Your task to perform on an android device: Search for hotels in Miami Image 0: 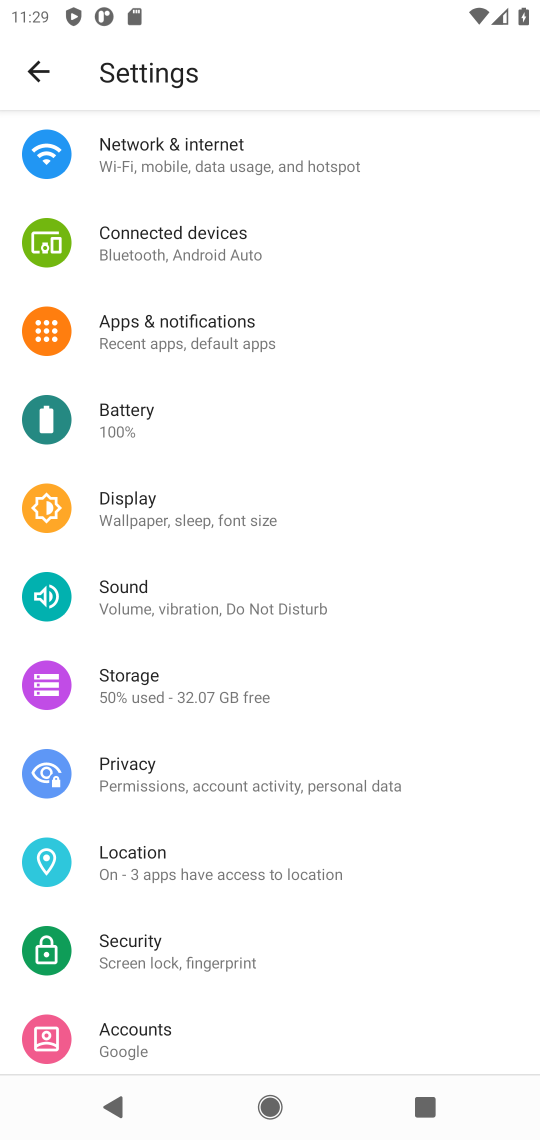
Step 0: press back button
Your task to perform on an android device: Search for hotels in Miami Image 1: 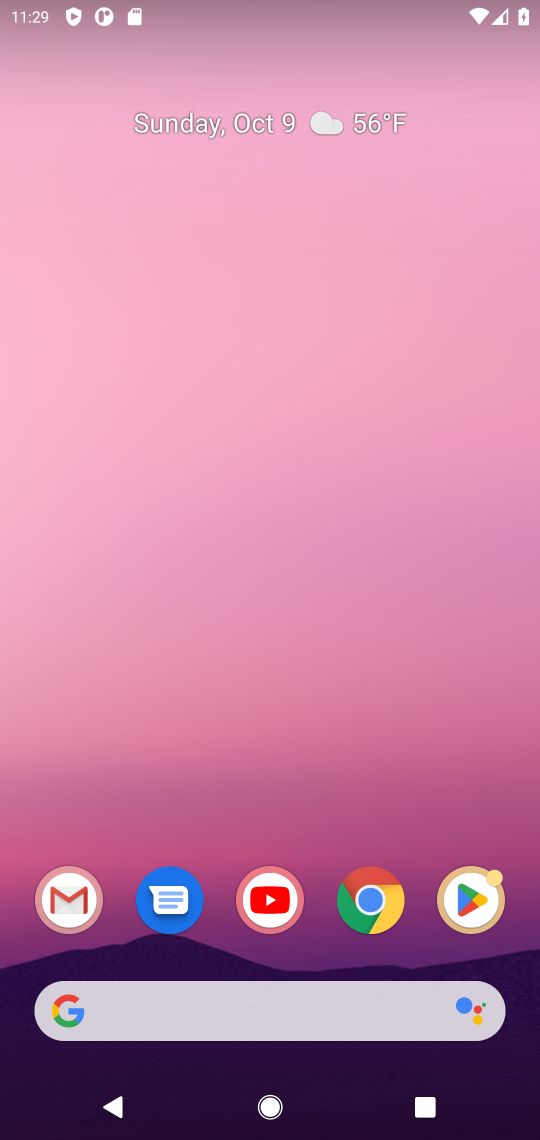
Step 1: click (339, 1027)
Your task to perform on an android device: Search for hotels in Miami Image 2: 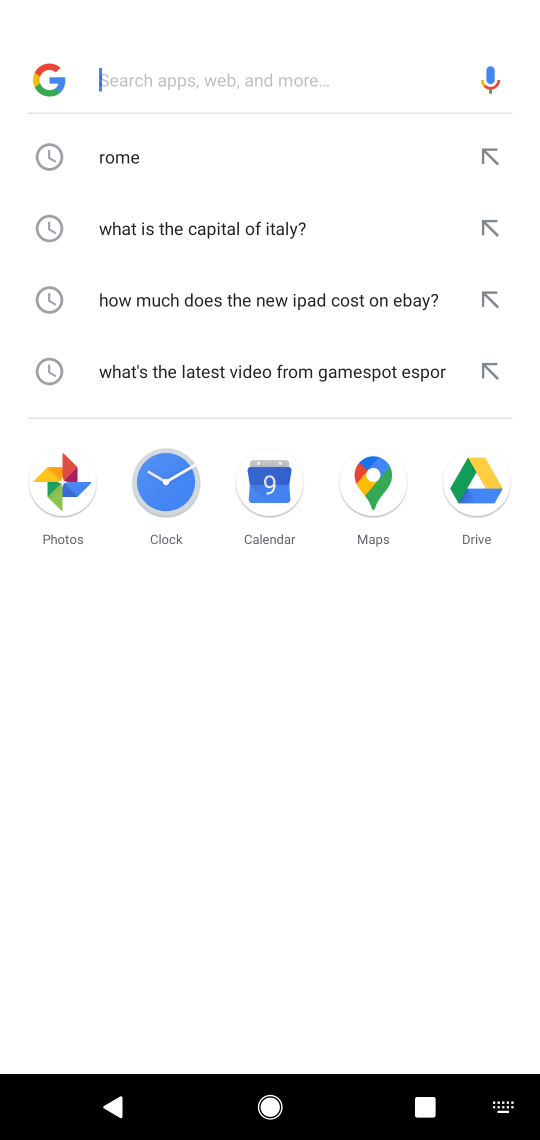
Step 2: type "hotels in miami"
Your task to perform on an android device: Search for hotels in Miami Image 3: 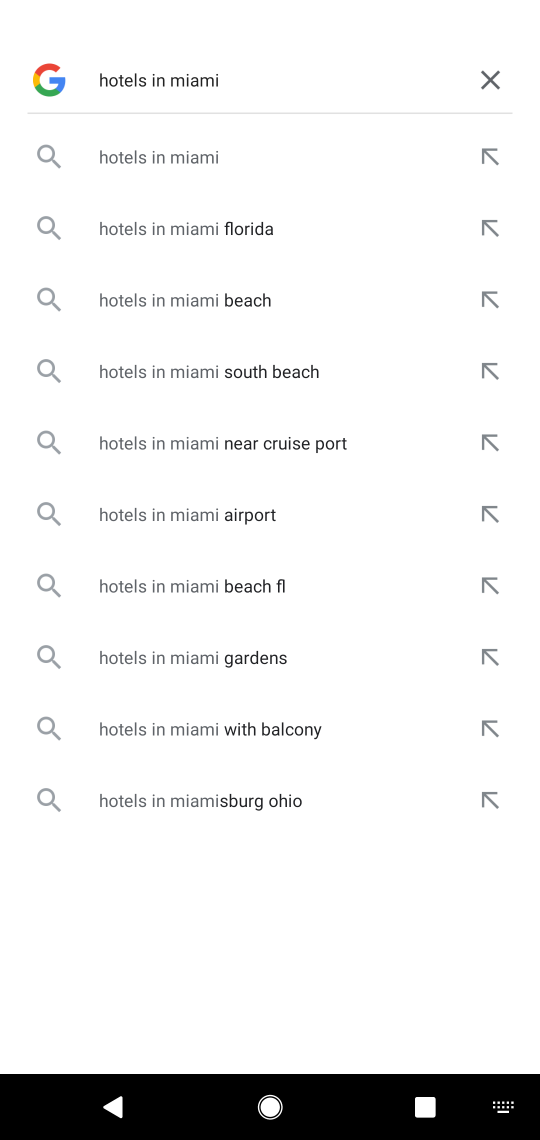
Step 3: type ""
Your task to perform on an android device: Search for hotels in Miami Image 4: 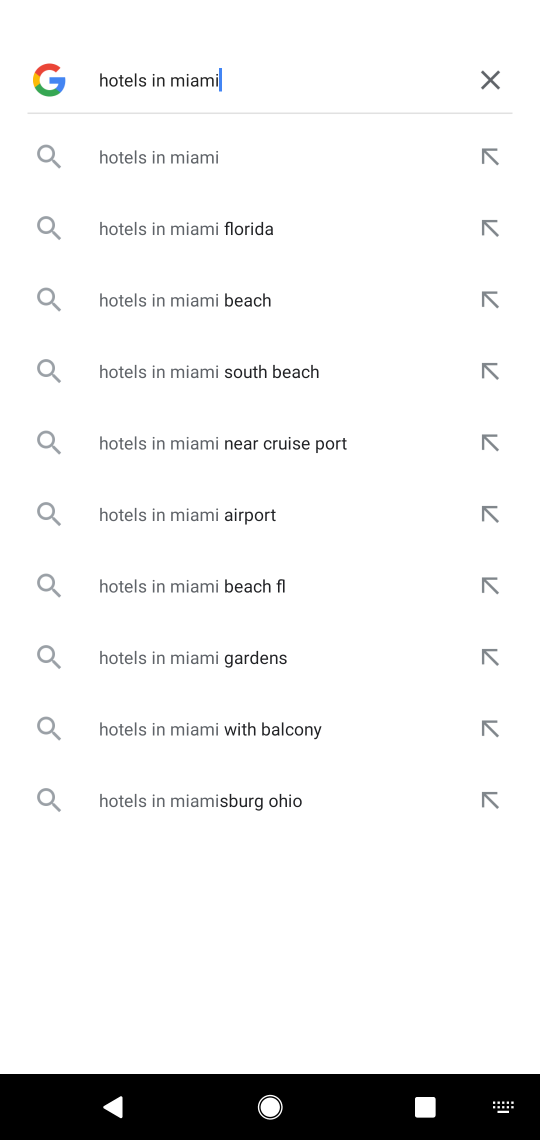
Step 4: press enter
Your task to perform on an android device: Search for hotels in Miami Image 5: 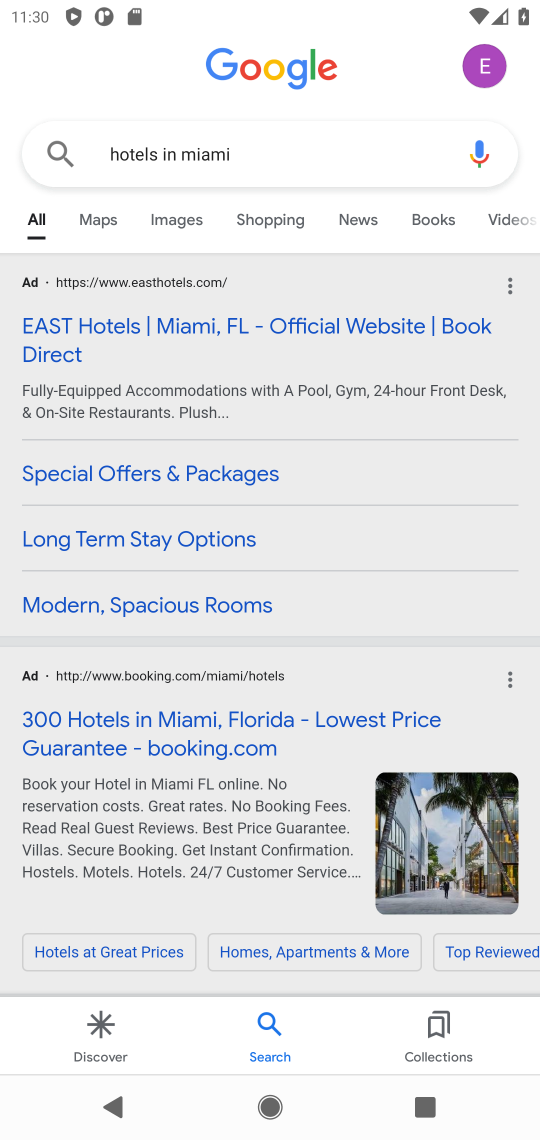
Step 5: drag from (228, 637) to (253, 256)
Your task to perform on an android device: Search for hotels in Miami Image 6: 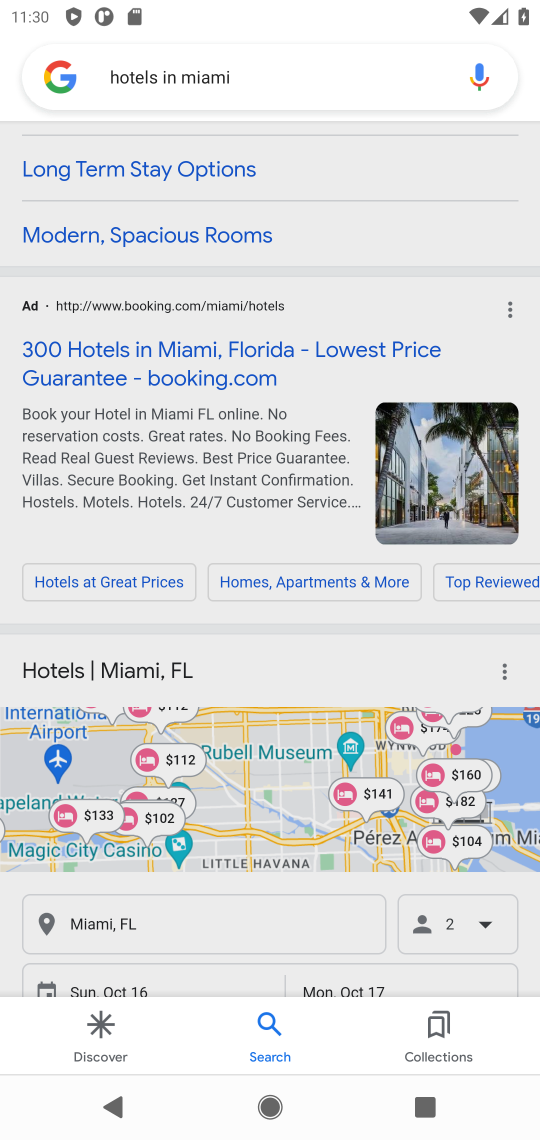
Step 6: drag from (268, 682) to (303, 247)
Your task to perform on an android device: Search for hotels in Miami Image 7: 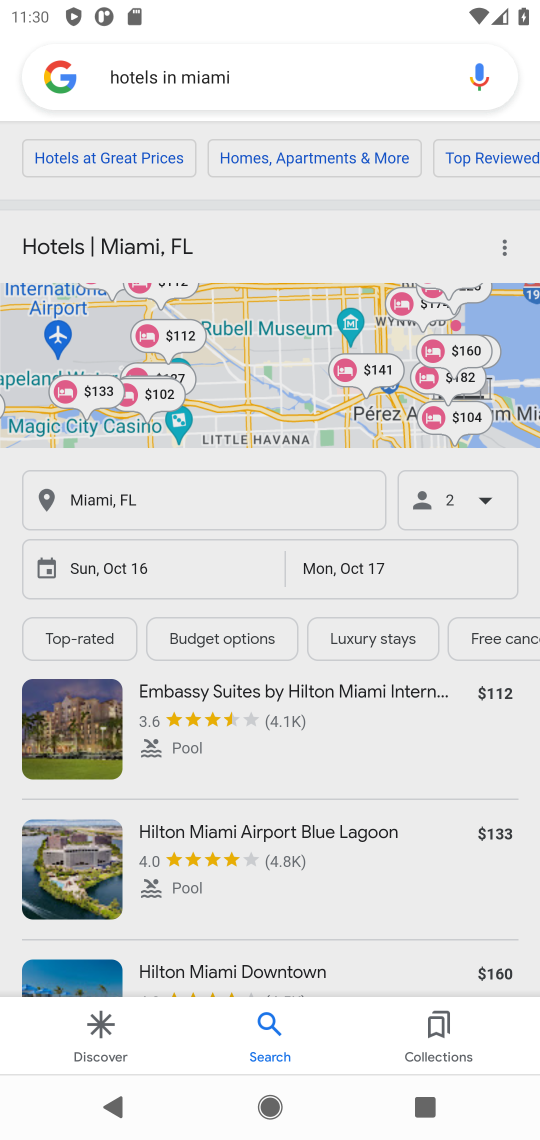
Step 7: drag from (306, 749) to (368, 333)
Your task to perform on an android device: Search for hotels in Miami Image 8: 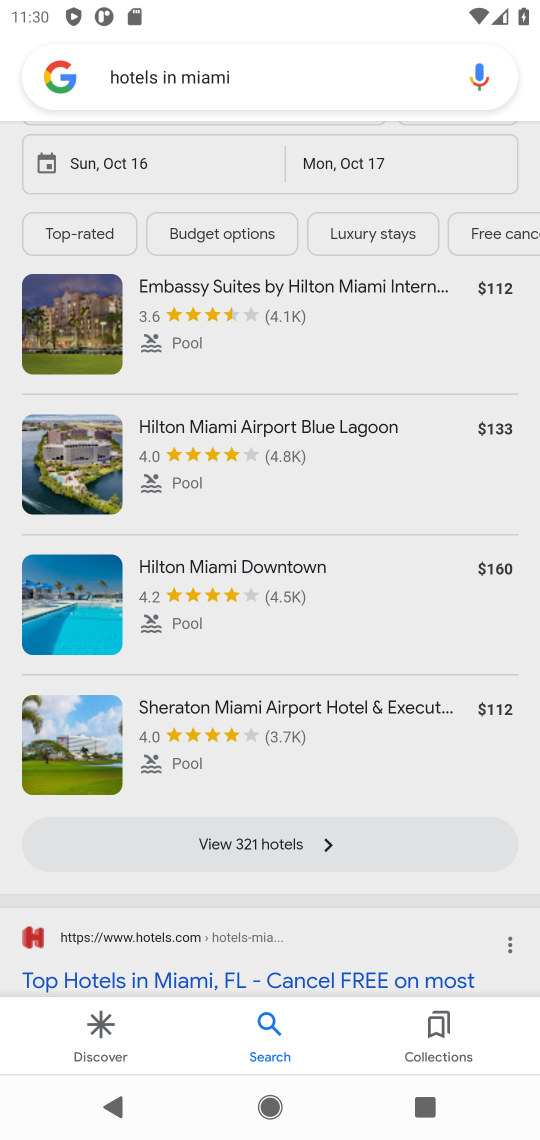
Step 8: drag from (304, 749) to (353, 250)
Your task to perform on an android device: Search for hotels in Miami Image 9: 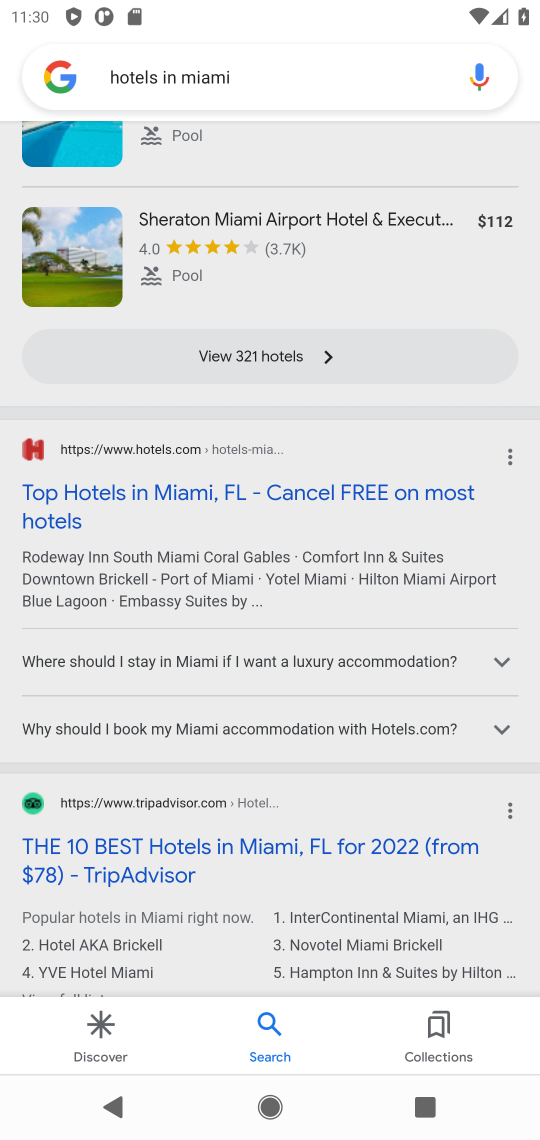
Step 9: click (209, 498)
Your task to perform on an android device: Search for hotels in Miami Image 10: 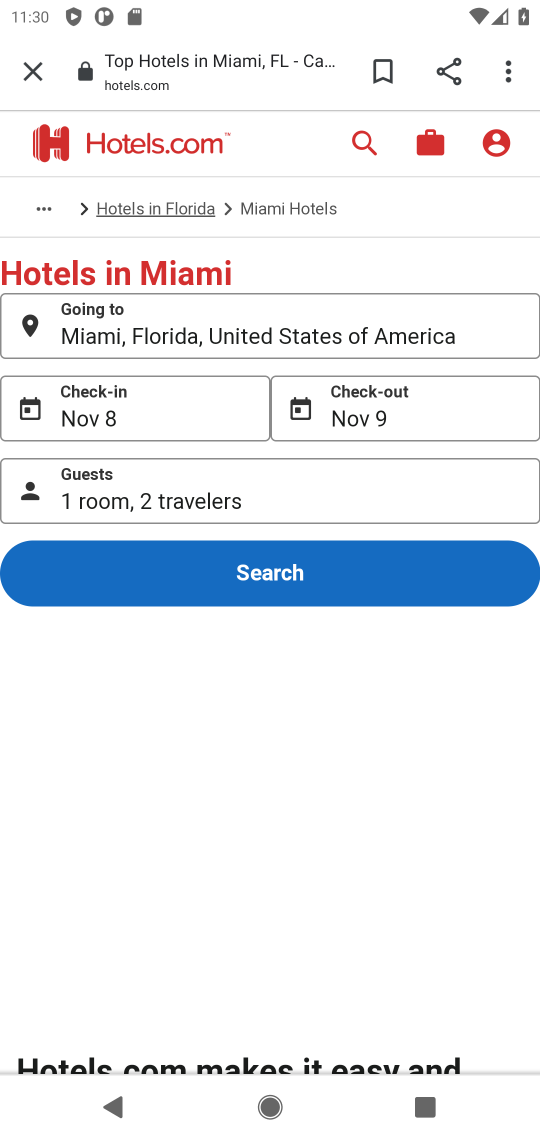
Step 10: drag from (272, 841) to (314, 432)
Your task to perform on an android device: Search for hotels in Miami Image 11: 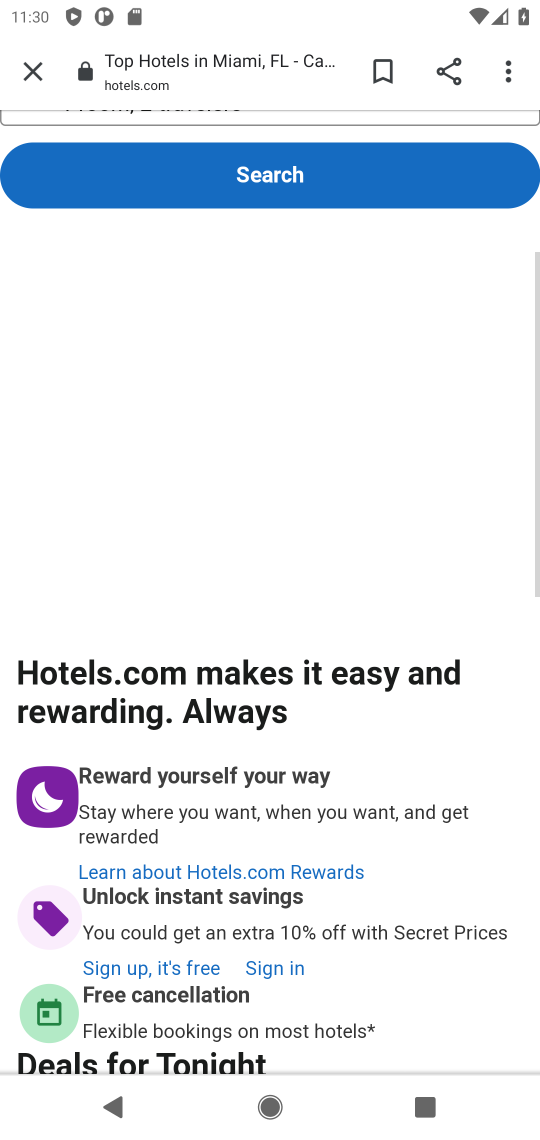
Step 11: drag from (380, 890) to (458, 262)
Your task to perform on an android device: Search for hotels in Miami Image 12: 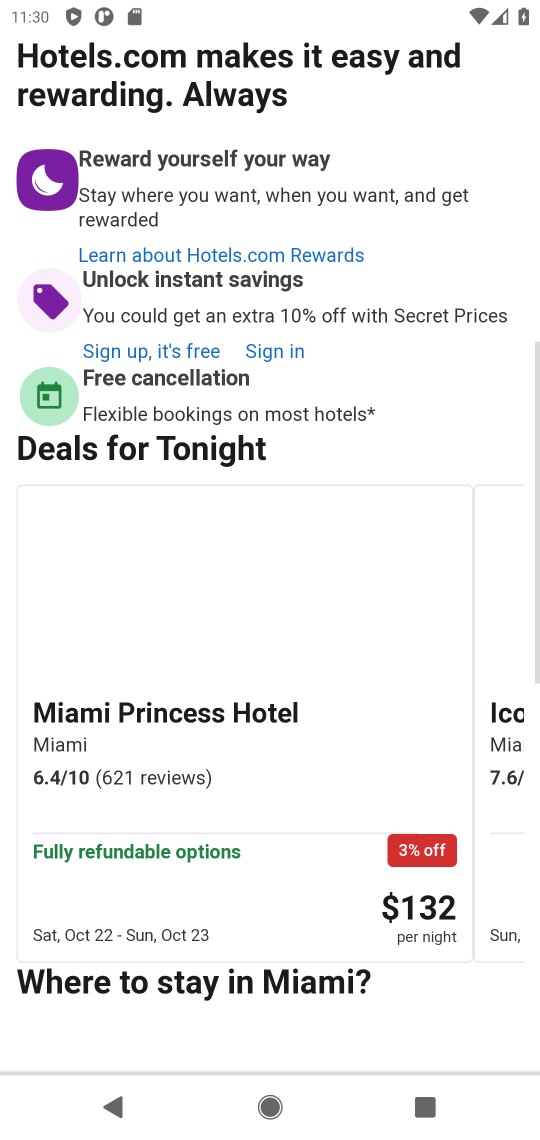
Step 12: drag from (385, 853) to (409, 241)
Your task to perform on an android device: Search for hotels in Miami Image 13: 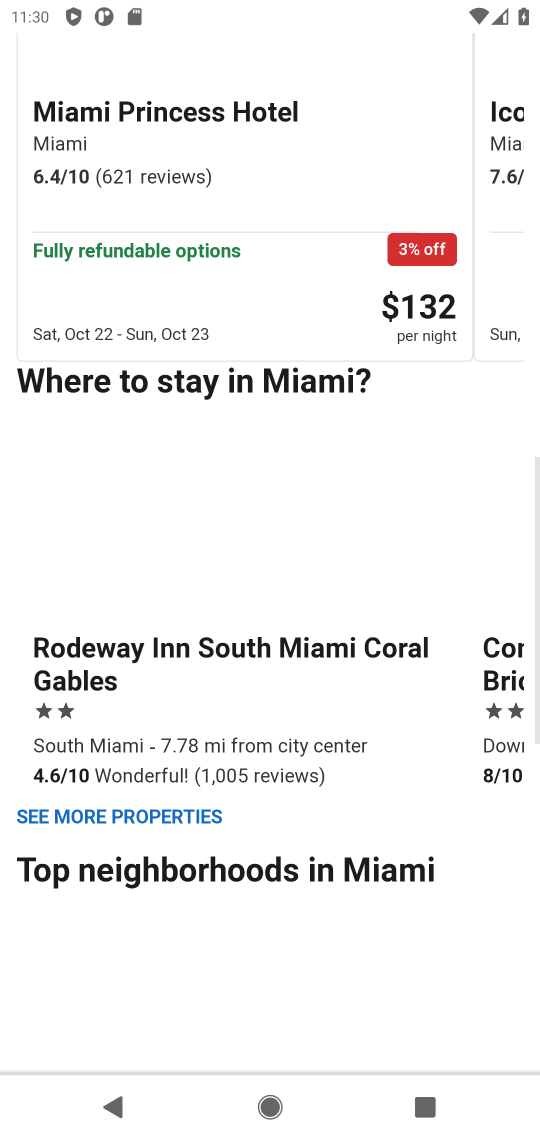
Step 13: drag from (424, 885) to (443, 245)
Your task to perform on an android device: Search for hotels in Miami Image 14: 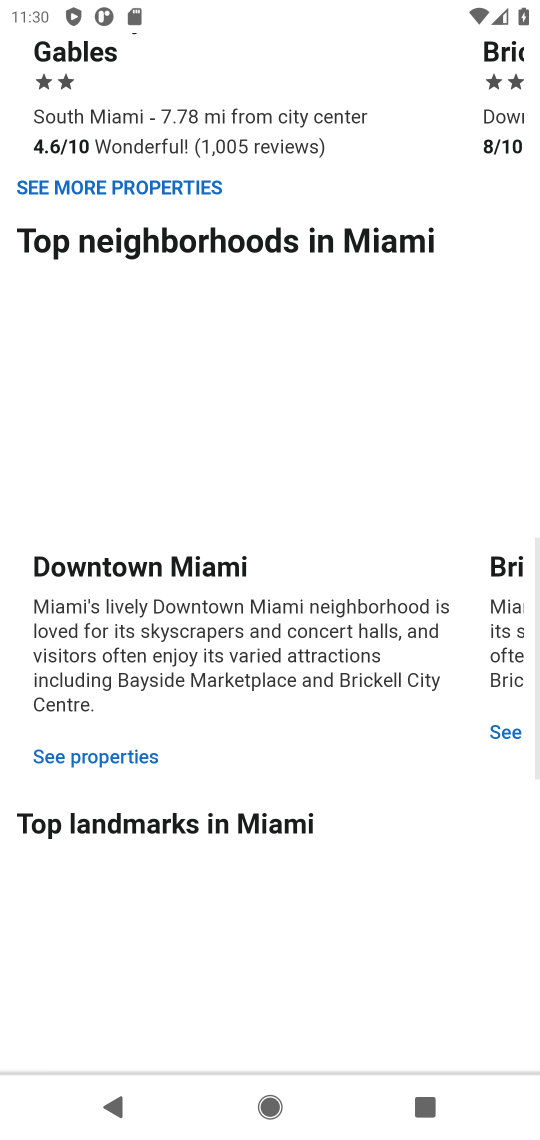
Step 14: drag from (435, 760) to (420, 244)
Your task to perform on an android device: Search for hotels in Miami Image 15: 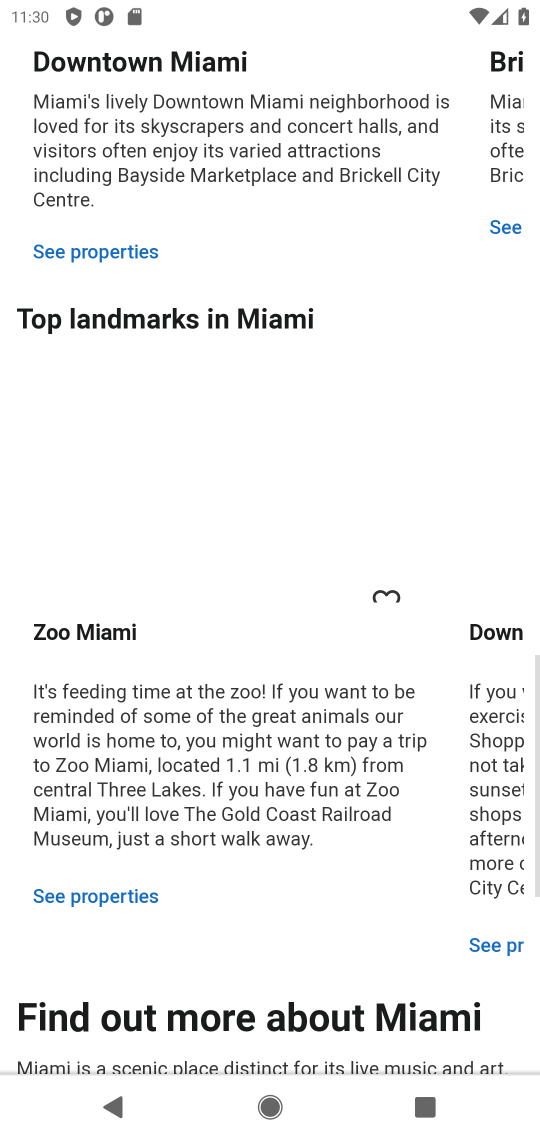
Step 15: drag from (352, 867) to (406, 418)
Your task to perform on an android device: Search for hotels in Miami Image 16: 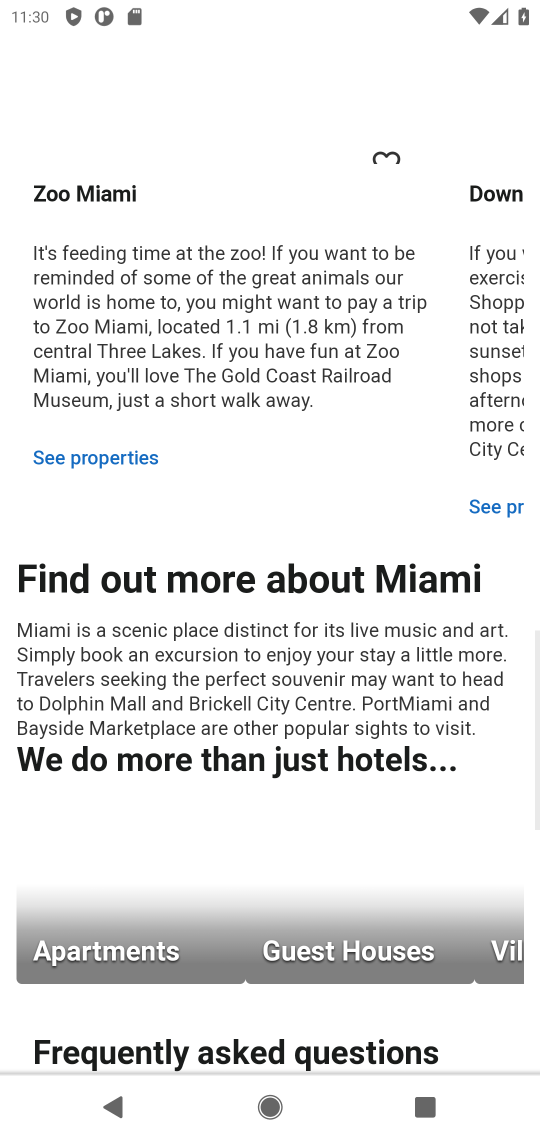
Step 16: drag from (390, 635) to (399, 258)
Your task to perform on an android device: Search for hotels in Miami Image 17: 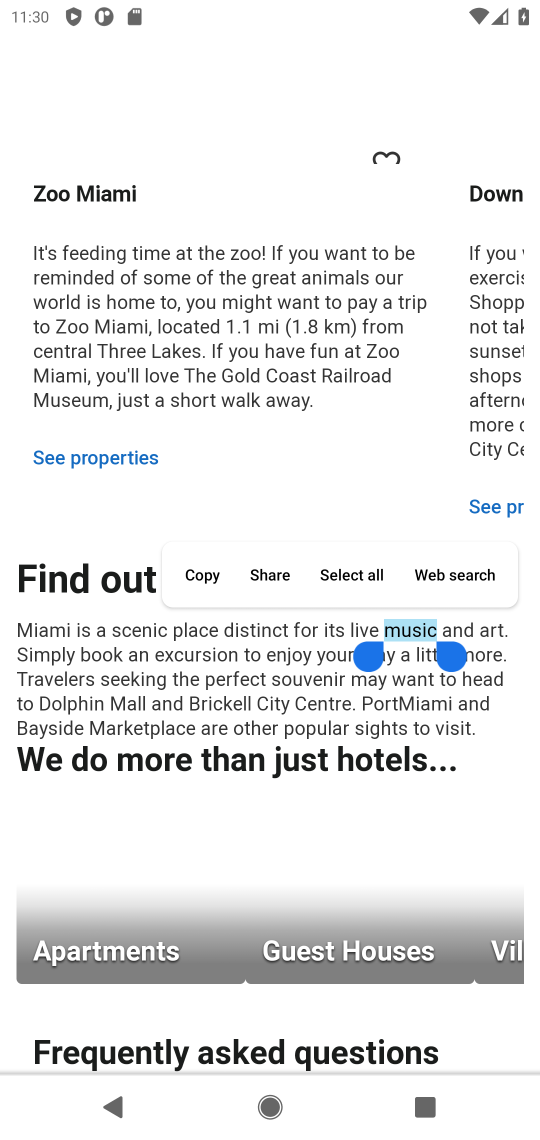
Step 17: drag from (407, 712) to (417, 200)
Your task to perform on an android device: Search for hotels in Miami Image 18: 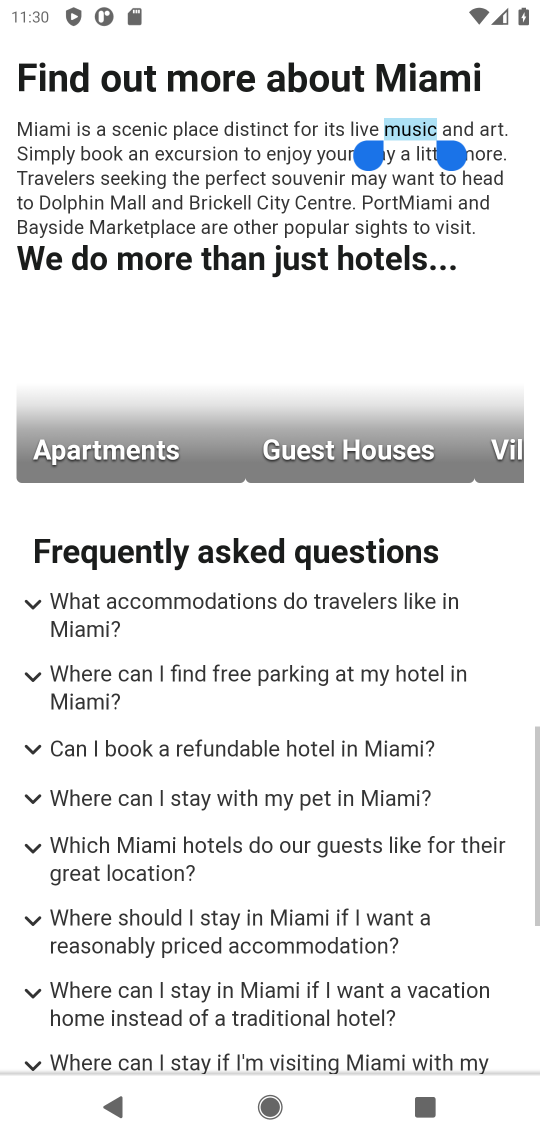
Step 18: drag from (390, 644) to (396, 203)
Your task to perform on an android device: Search for hotels in Miami Image 19: 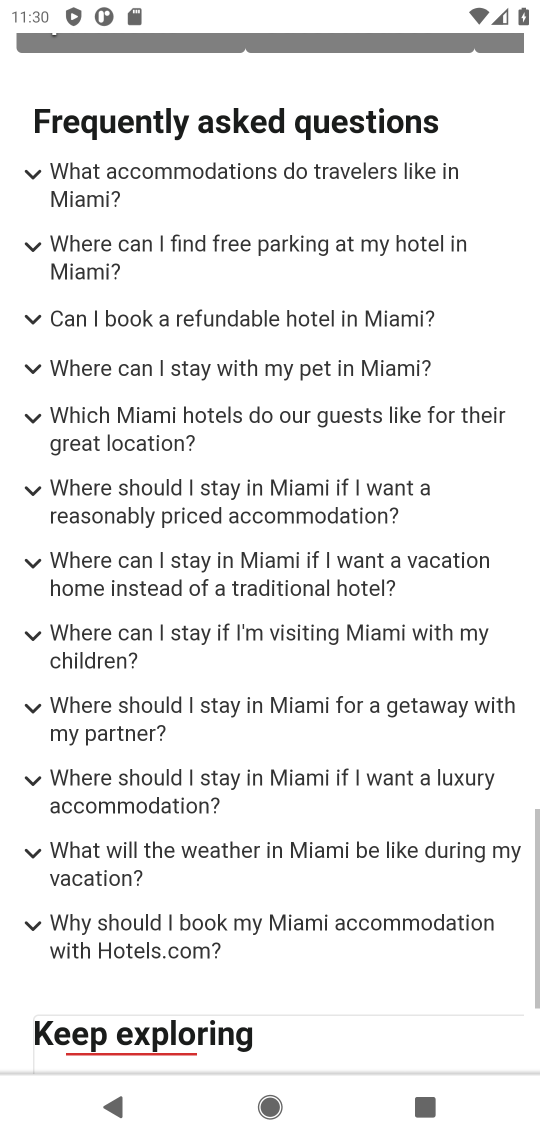
Step 19: drag from (350, 673) to (401, 265)
Your task to perform on an android device: Search for hotels in Miami Image 20: 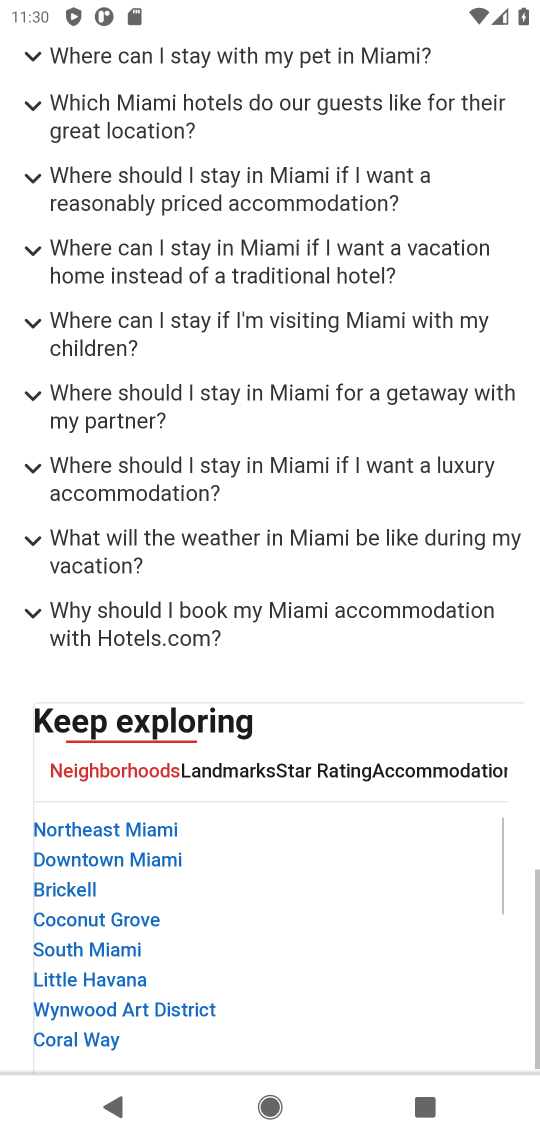
Step 20: drag from (400, 622) to (408, 231)
Your task to perform on an android device: Search for hotels in Miami Image 21: 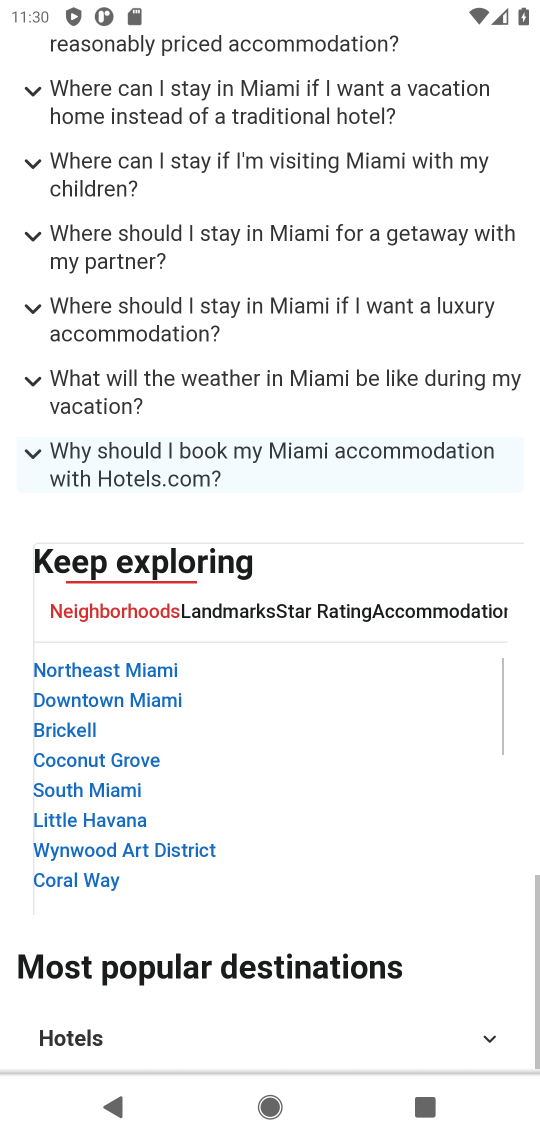
Step 21: drag from (417, 629) to (464, 152)
Your task to perform on an android device: Search for hotels in Miami Image 22: 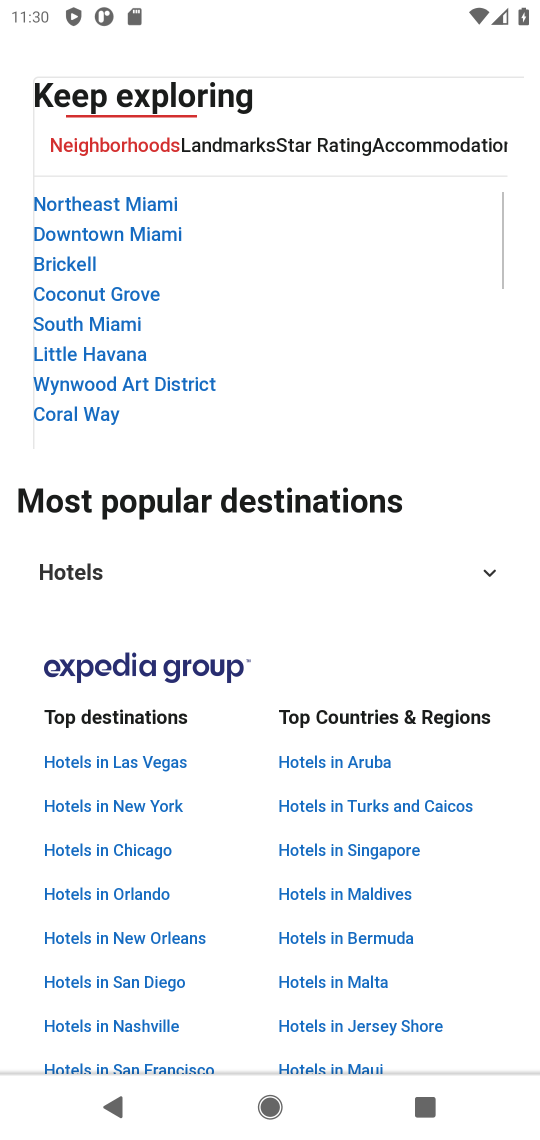
Step 22: click (428, 330)
Your task to perform on an android device: Search for hotels in Miami Image 23: 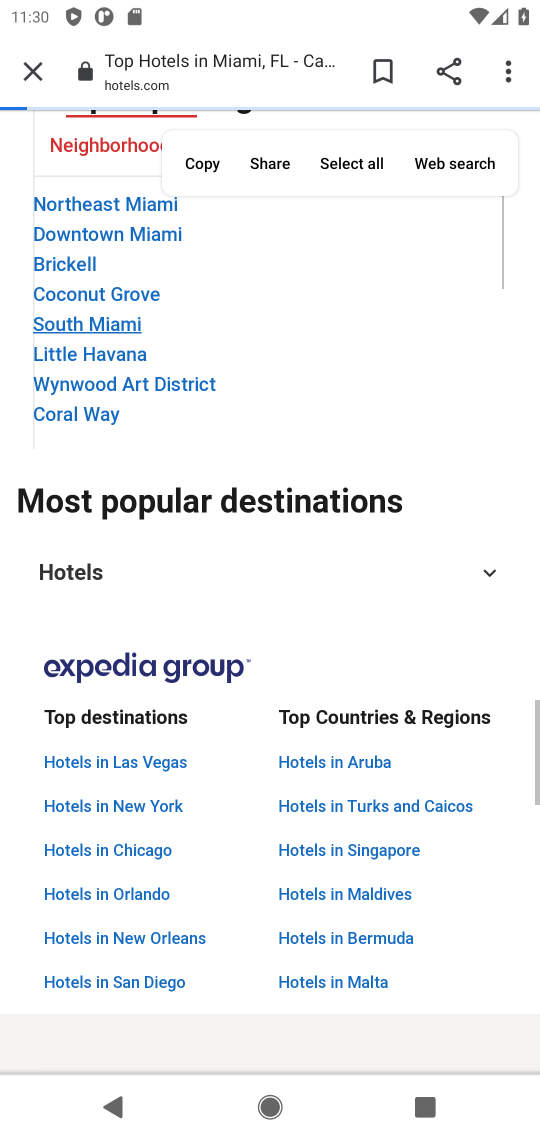
Step 23: press back button
Your task to perform on an android device: Search for hotels in Miami Image 24: 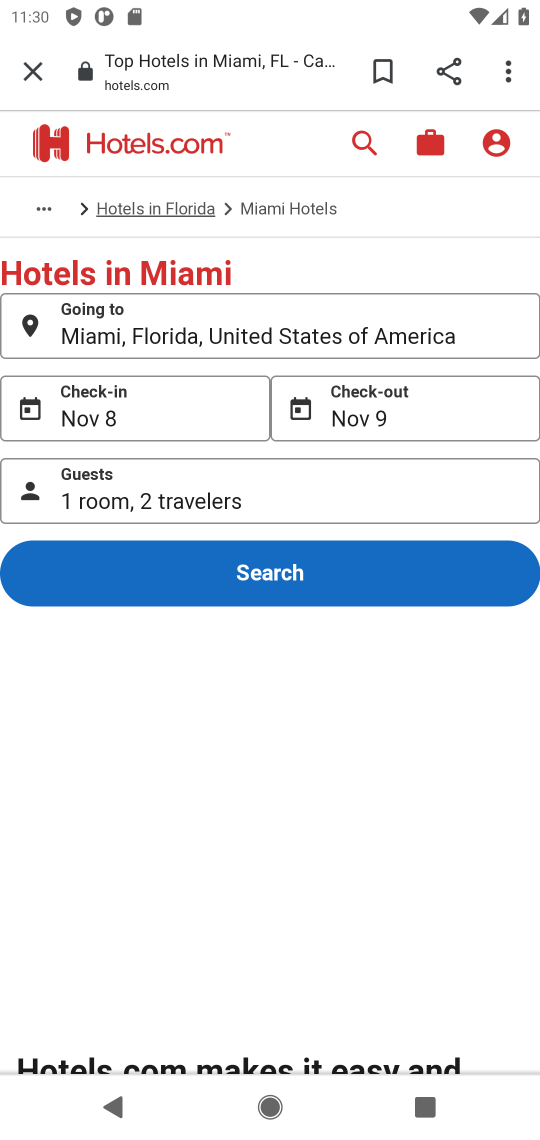
Step 24: drag from (421, 730) to (400, 220)
Your task to perform on an android device: Search for hotels in Miami Image 25: 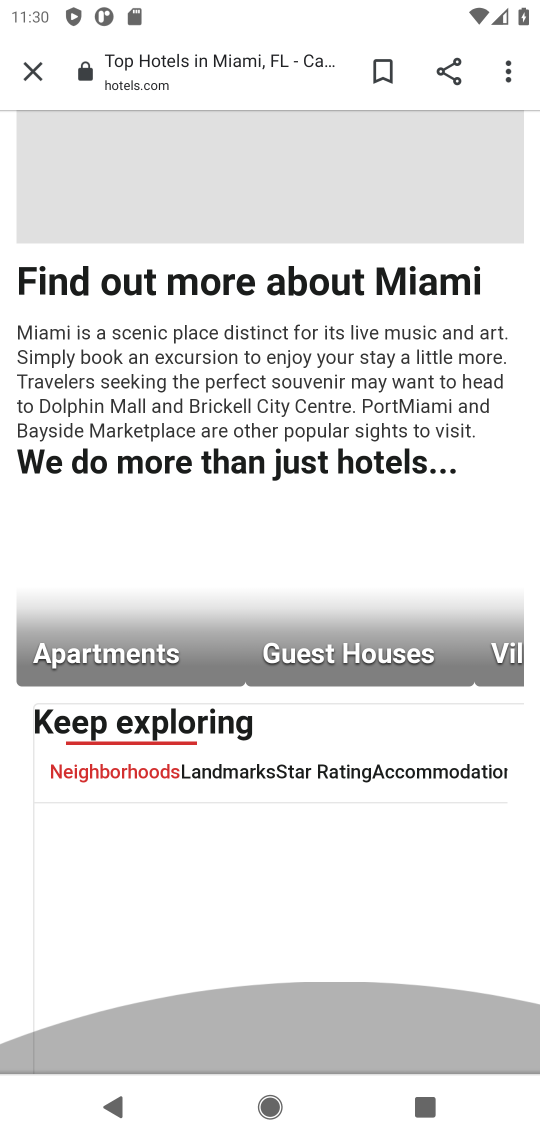
Step 25: click (388, 327)
Your task to perform on an android device: Search for hotels in Miami Image 26: 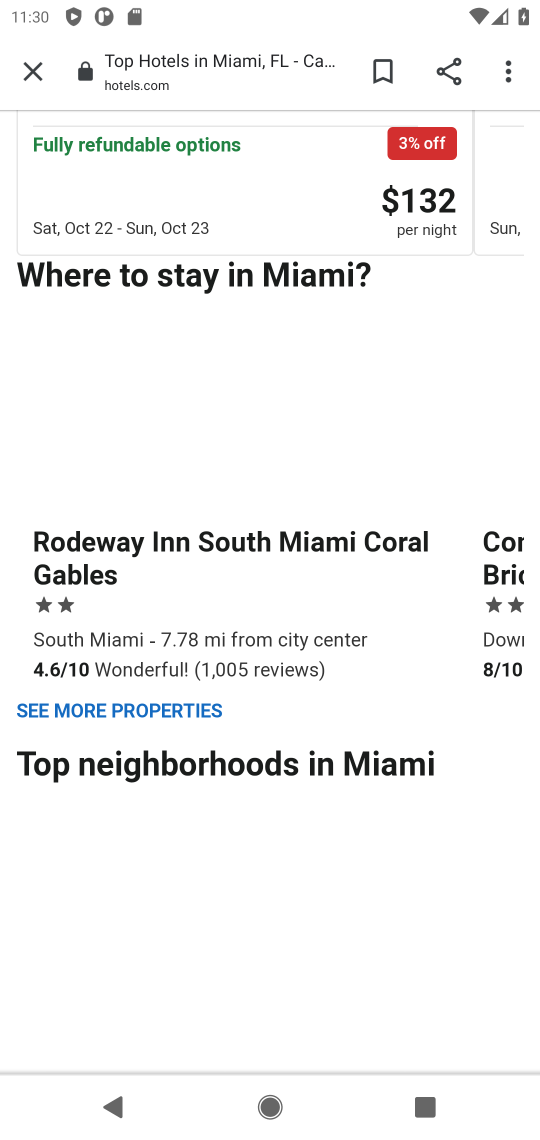
Step 26: drag from (403, 365) to (457, 132)
Your task to perform on an android device: Search for hotels in Miami Image 27: 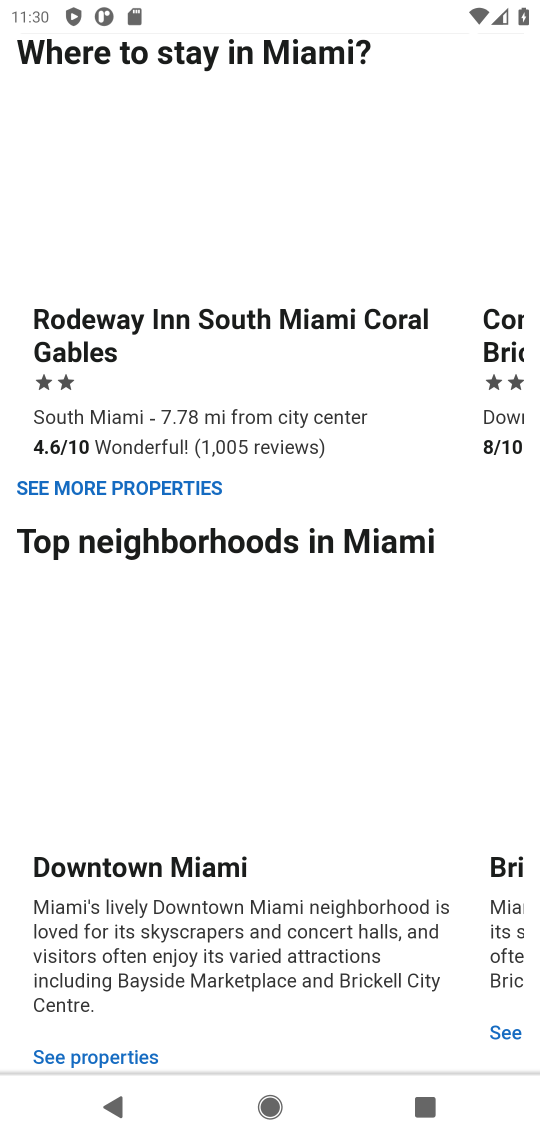
Step 27: drag from (242, 833) to (263, 464)
Your task to perform on an android device: Search for hotels in Miami Image 28: 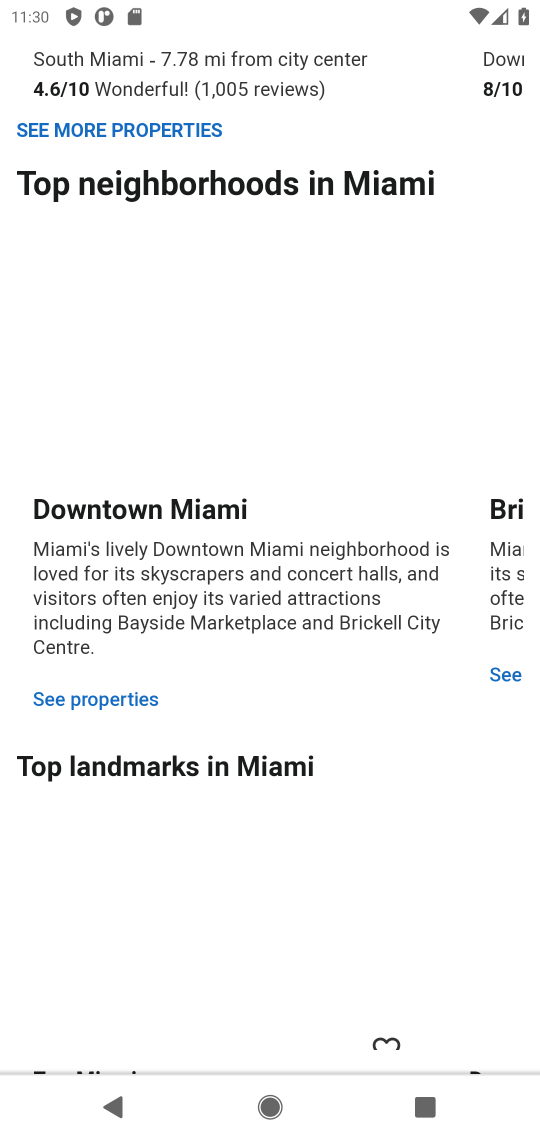
Step 28: drag from (466, 522) to (16, 529)
Your task to perform on an android device: Search for hotels in Miami Image 29: 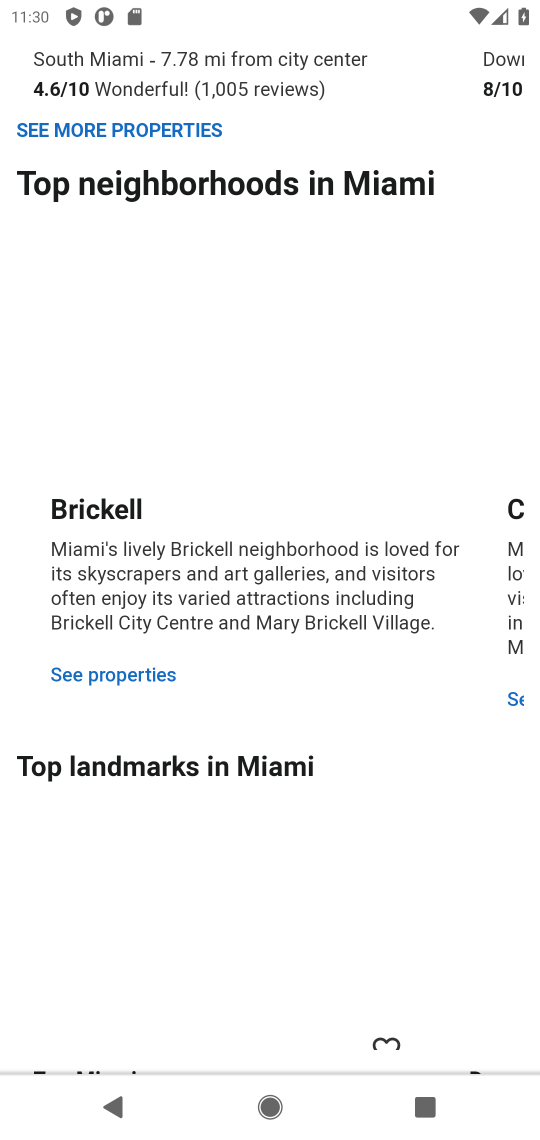
Step 29: drag from (310, 354) to (271, 927)
Your task to perform on an android device: Search for hotels in Miami Image 30: 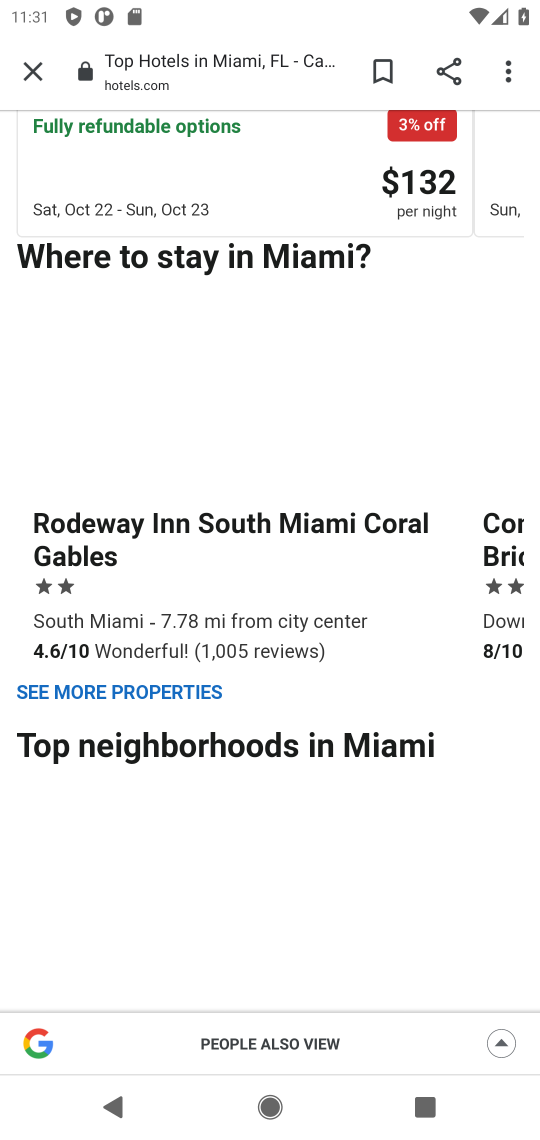
Step 30: drag from (491, 623) to (86, 617)
Your task to perform on an android device: Search for hotels in Miami Image 31: 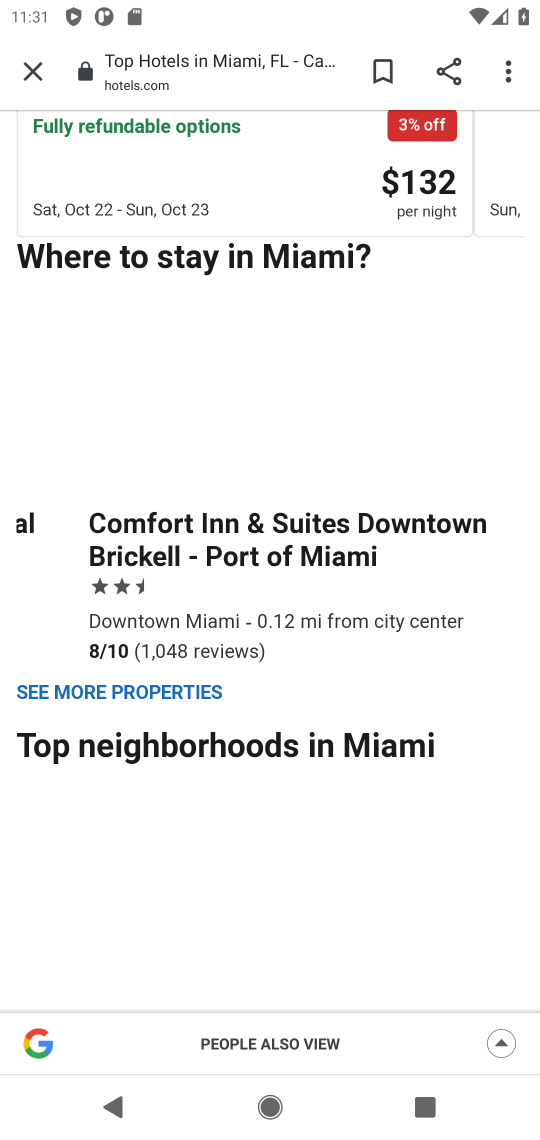
Step 31: drag from (362, 377) to (328, 982)
Your task to perform on an android device: Search for hotels in Miami Image 32: 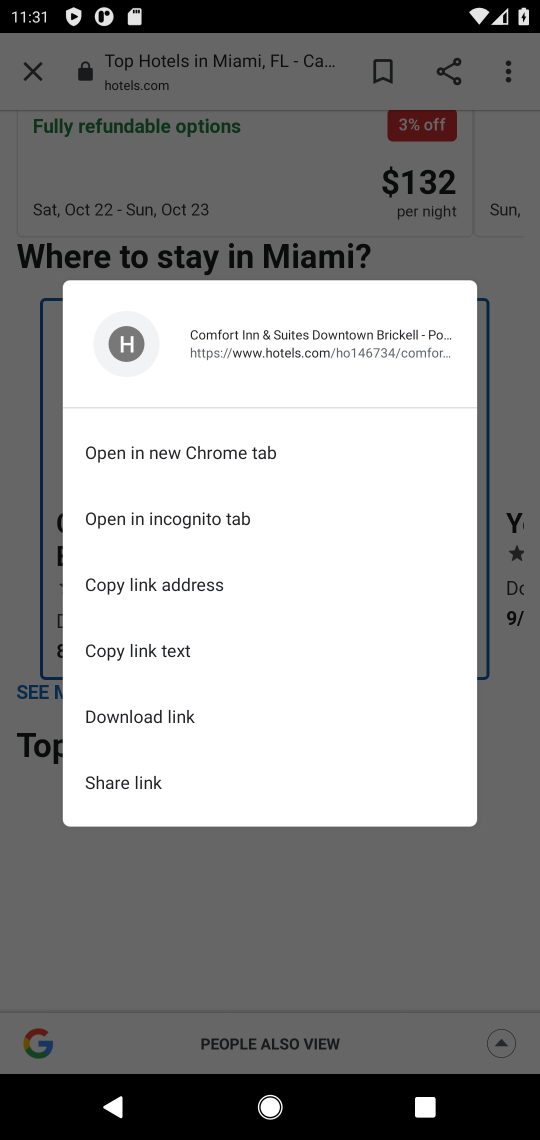
Step 32: click (262, 227)
Your task to perform on an android device: Search for hotels in Miami Image 33: 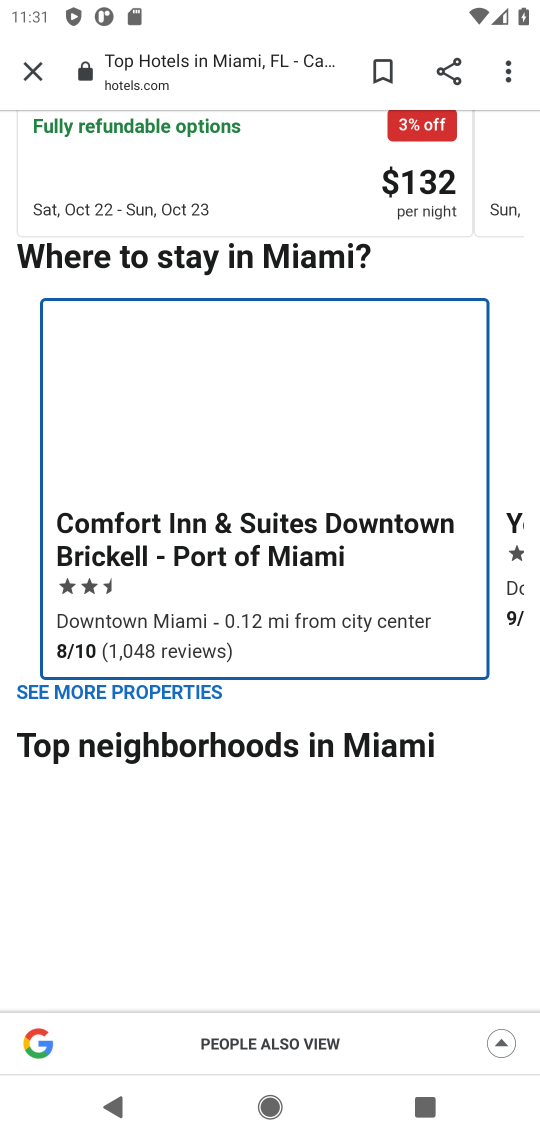
Step 33: drag from (422, 200) to (462, 944)
Your task to perform on an android device: Search for hotels in Miami Image 34: 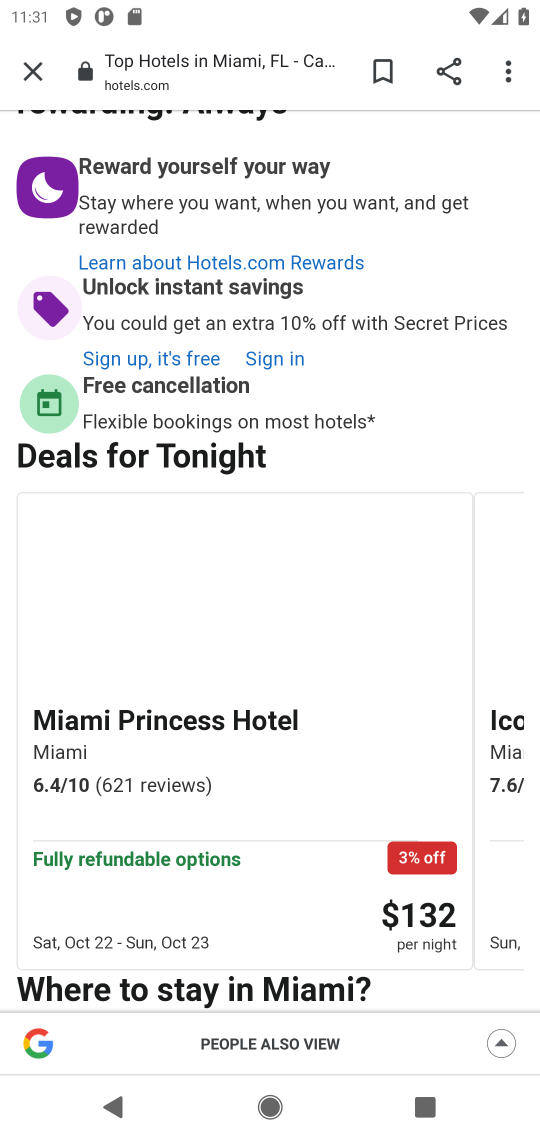
Step 34: drag from (512, 794) to (45, 800)
Your task to perform on an android device: Search for hotels in Miami Image 35: 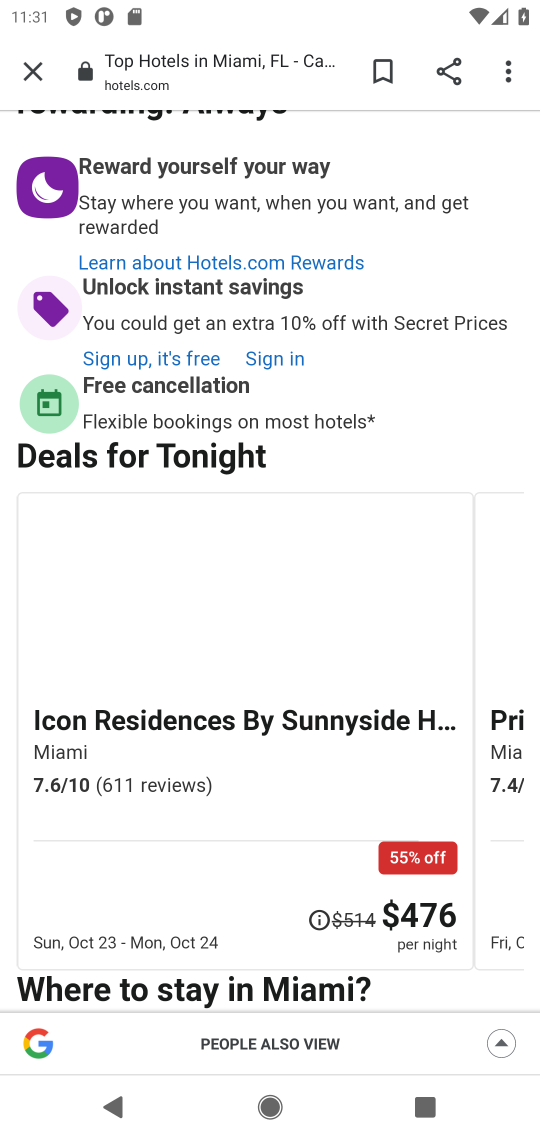
Step 35: click (171, 709)
Your task to perform on an android device: Search for hotels in Miami Image 36: 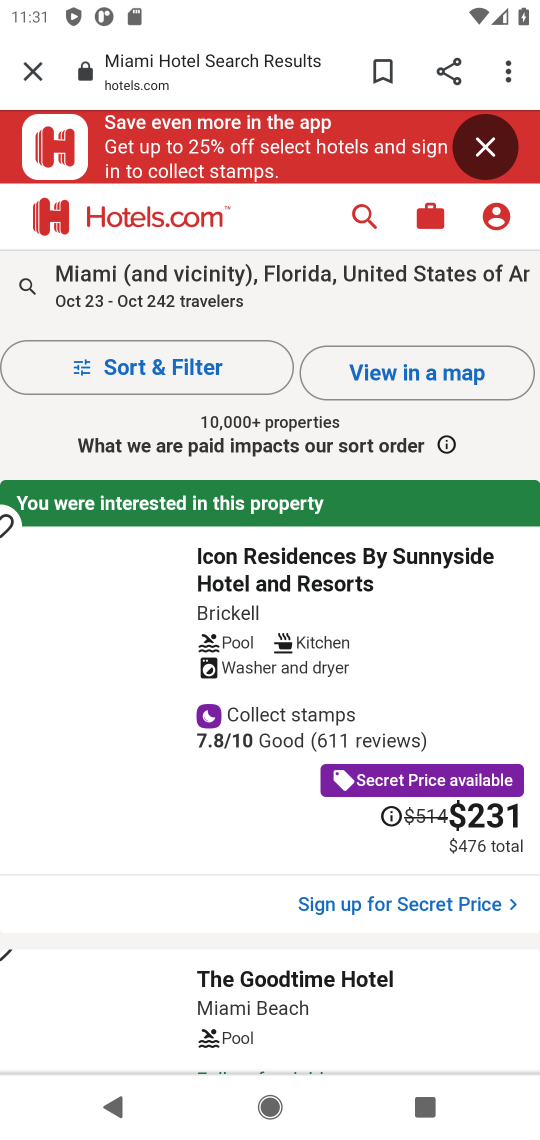
Step 36: drag from (199, 897) to (327, 257)
Your task to perform on an android device: Search for hotels in Miami Image 37: 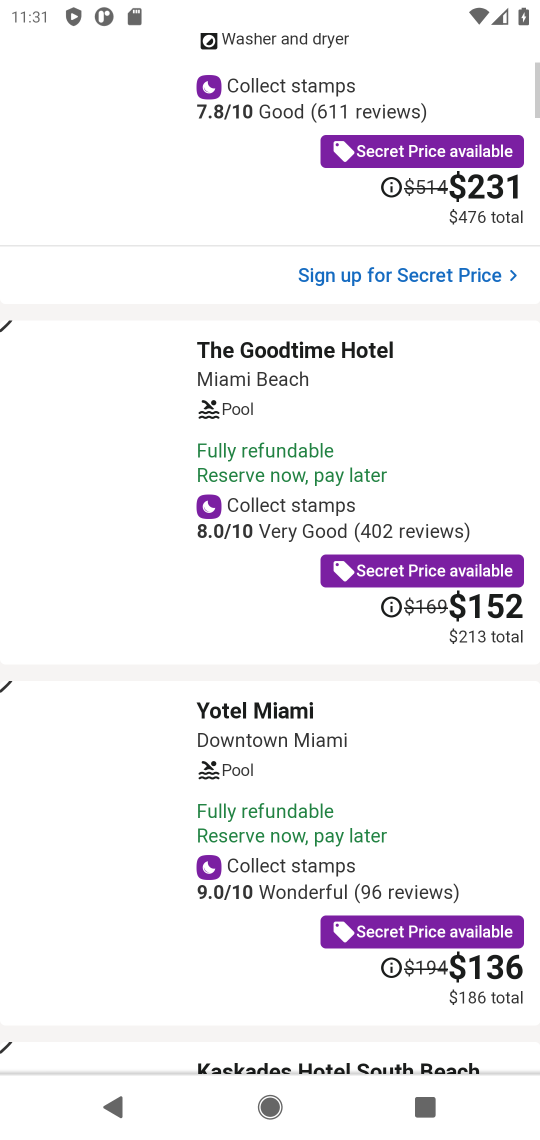
Step 37: drag from (333, 521) to (361, 266)
Your task to perform on an android device: Search for hotels in Miami Image 38: 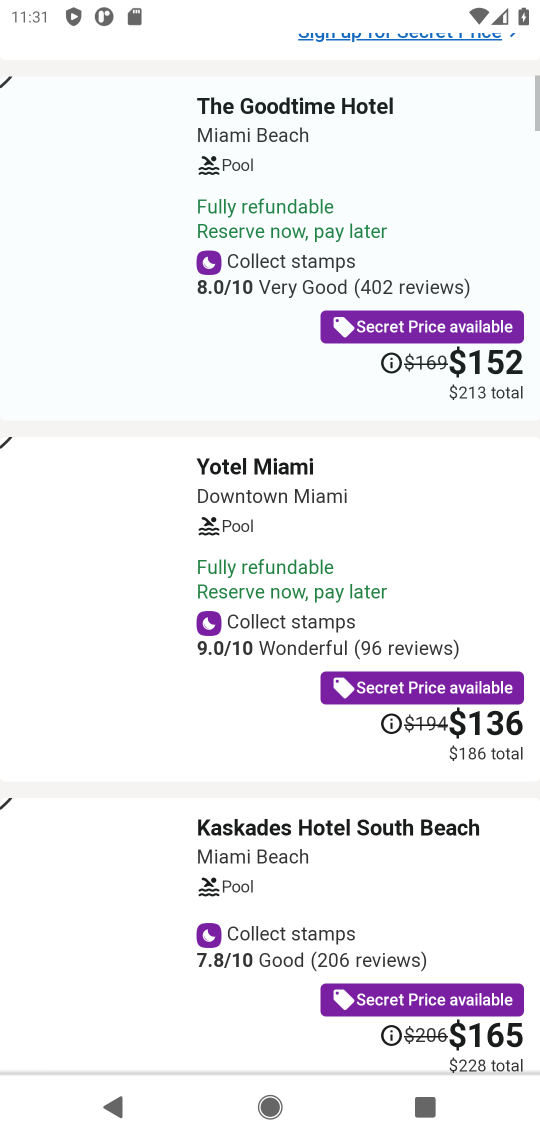
Step 38: drag from (274, 788) to (338, 252)
Your task to perform on an android device: Search for hotels in Miami Image 39: 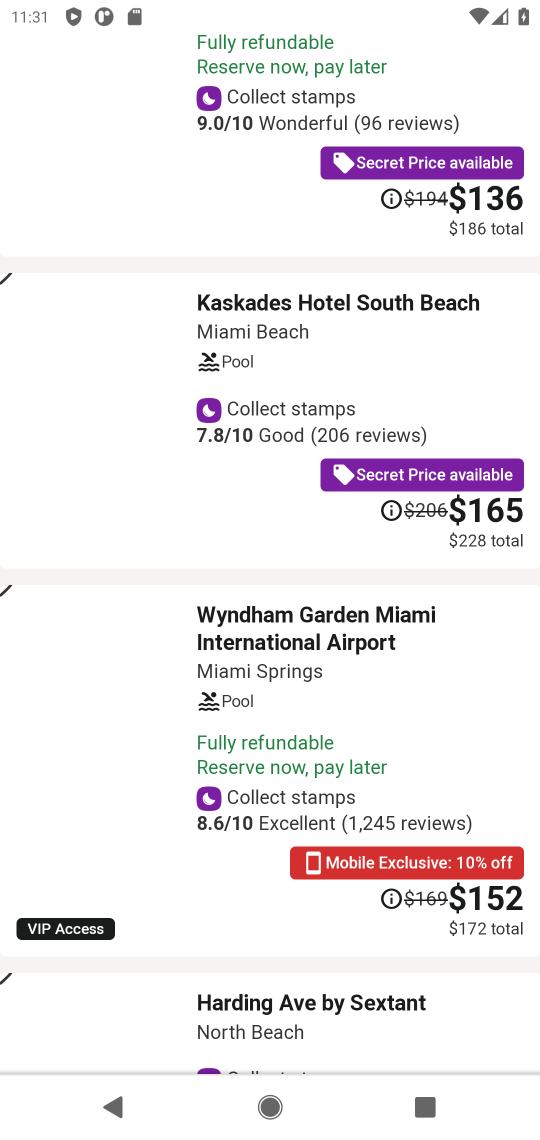
Step 39: drag from (315, 781) to (368, 242)
Your task to perform on an android device: Search for hotels in Miami Image 40: 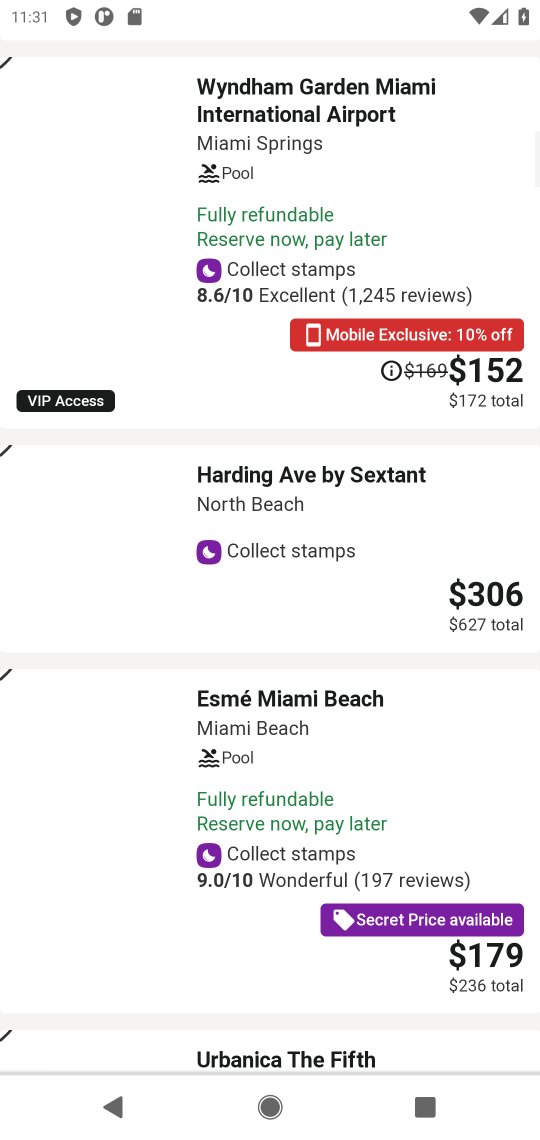
Step 40: drag from (336, 841) to (408, 137)
Your task to perform on an android device: Search for hotels in Miami Image 41: 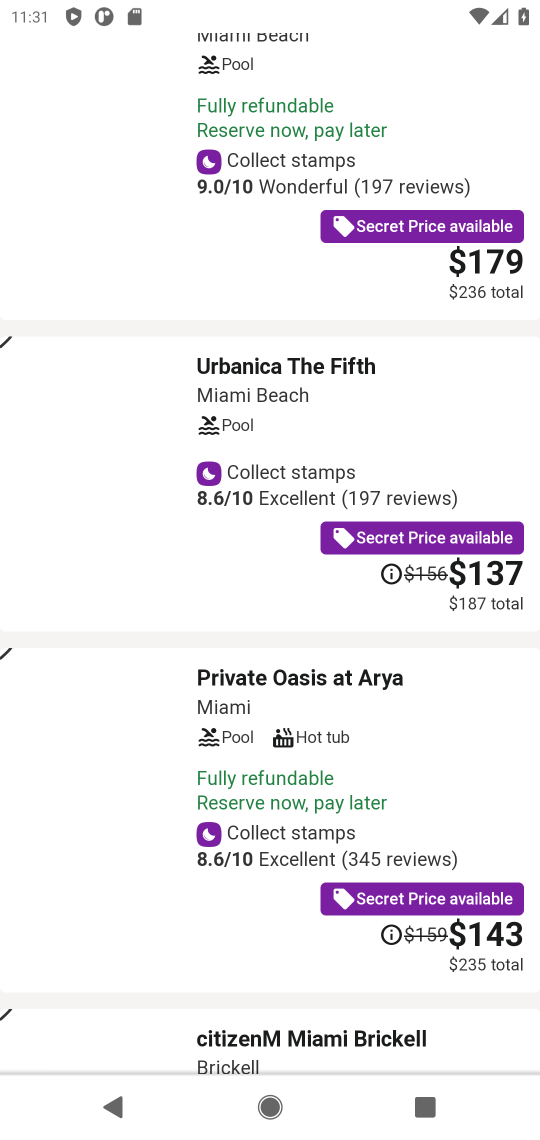
Step 41: drag from (380, 830) to (369, 68)
Your task to perform on an android device: Search for hotels in Miami Image 42: 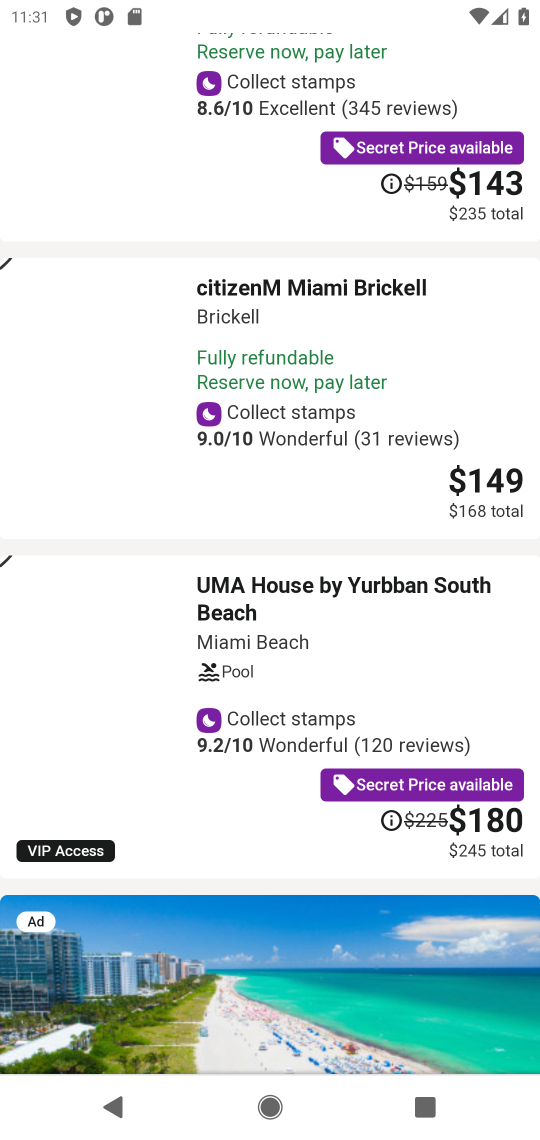
Step 42: drag from (365, 831) to (381, 172)
Your task to perform on an android device: Search for hotels in Miami Image 43: 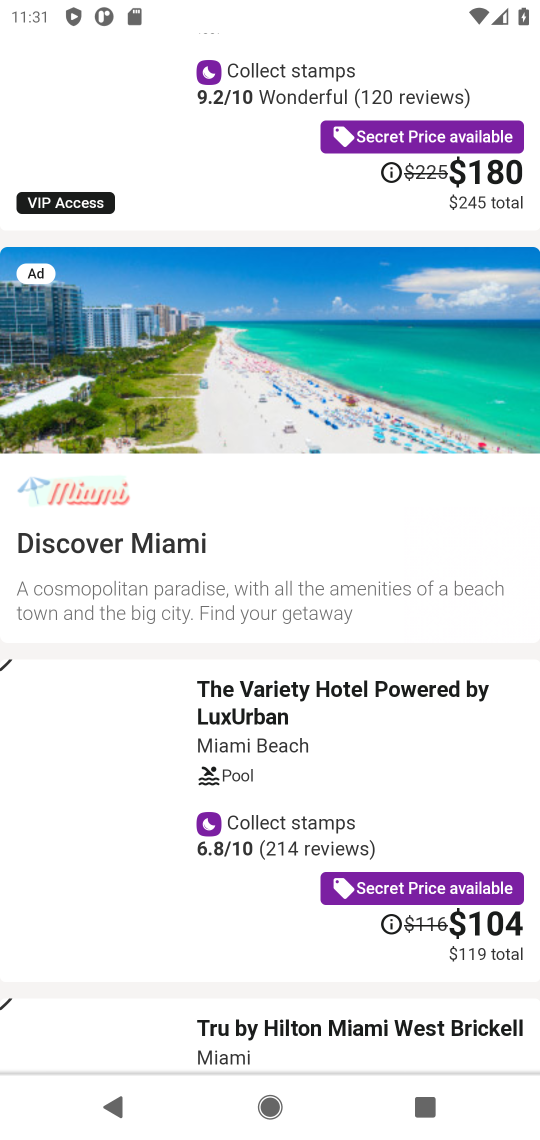
Step 43: drag from (332, 783) to (399, 129)
Your task to perform on an android device: Search for hotels in Miami Image 44: 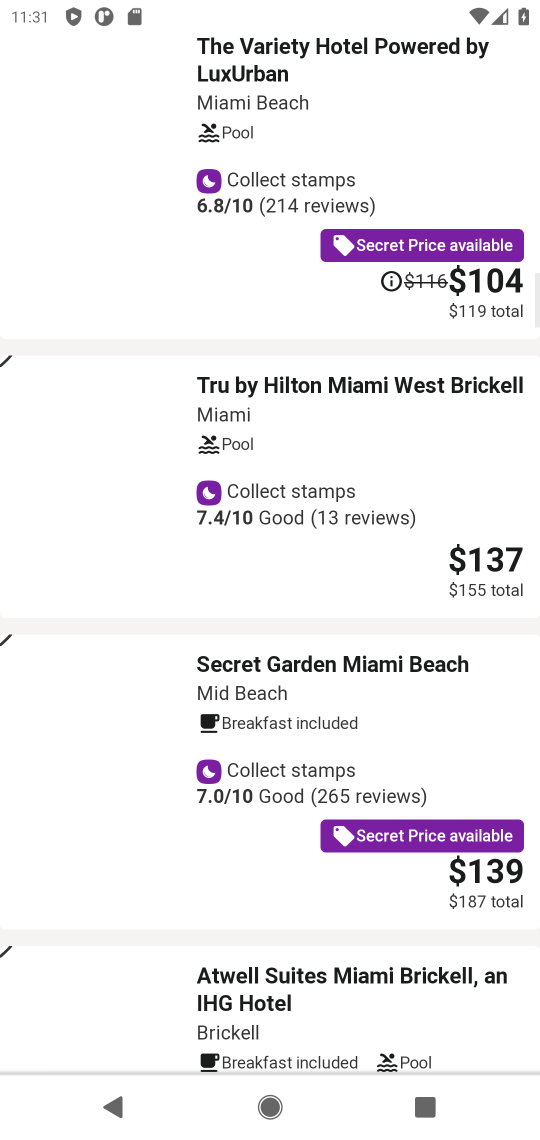
Step 44: drag from (381, 711) to (412, 125)
Your task to perform on an android device: Search for hotels in Miami Image 45: 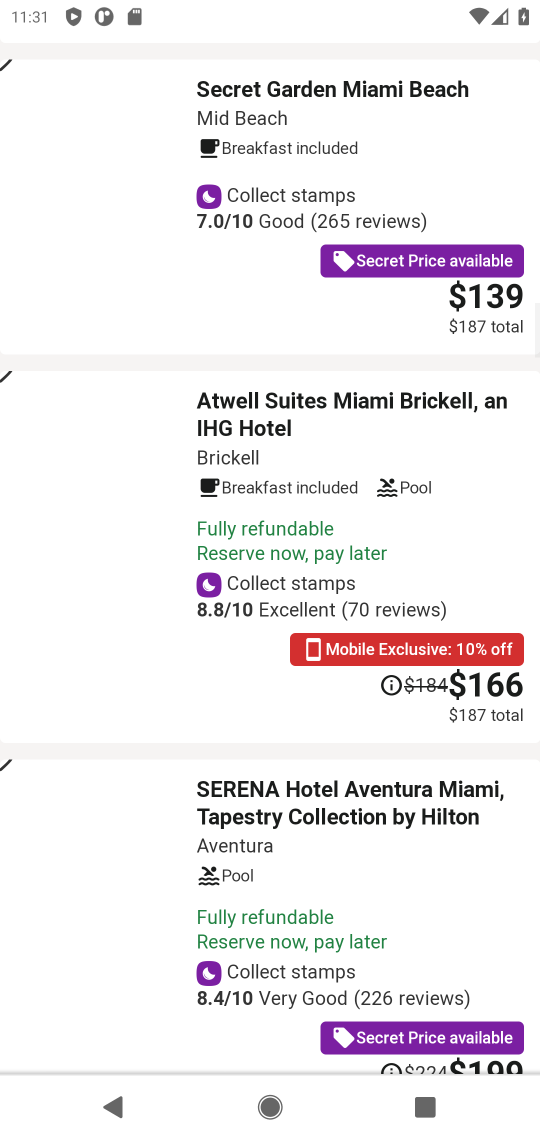
Step 45: drag from (434, 796) to (455, 127)
Your task to perform on an android device: Search for hotels in Miami Image 46: 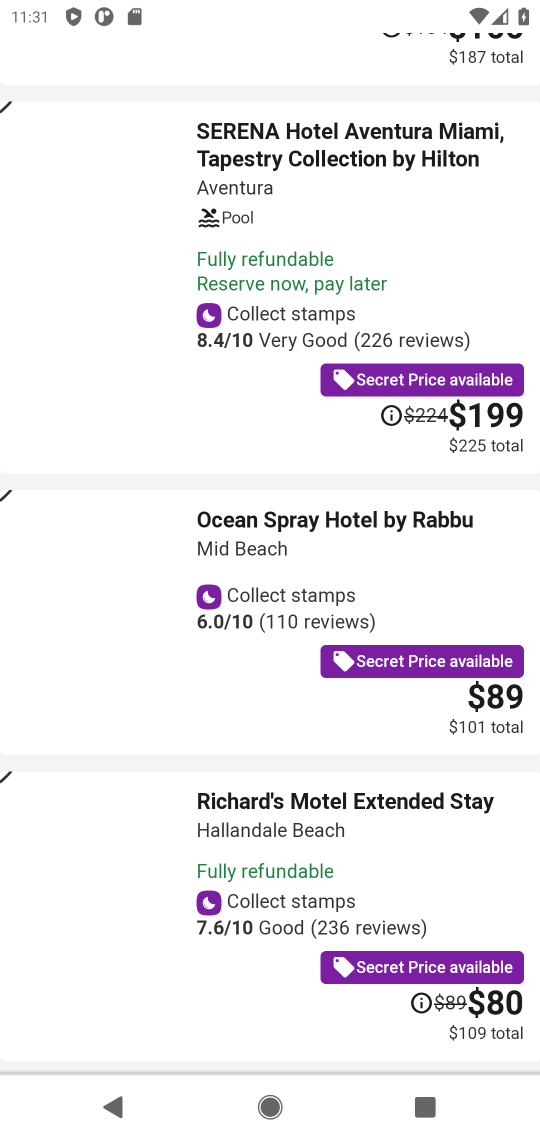
Step 46: drag from (402, 698) to (410, 160)
Your task to perform on an android device: Search for hotels in Miami Image 47: 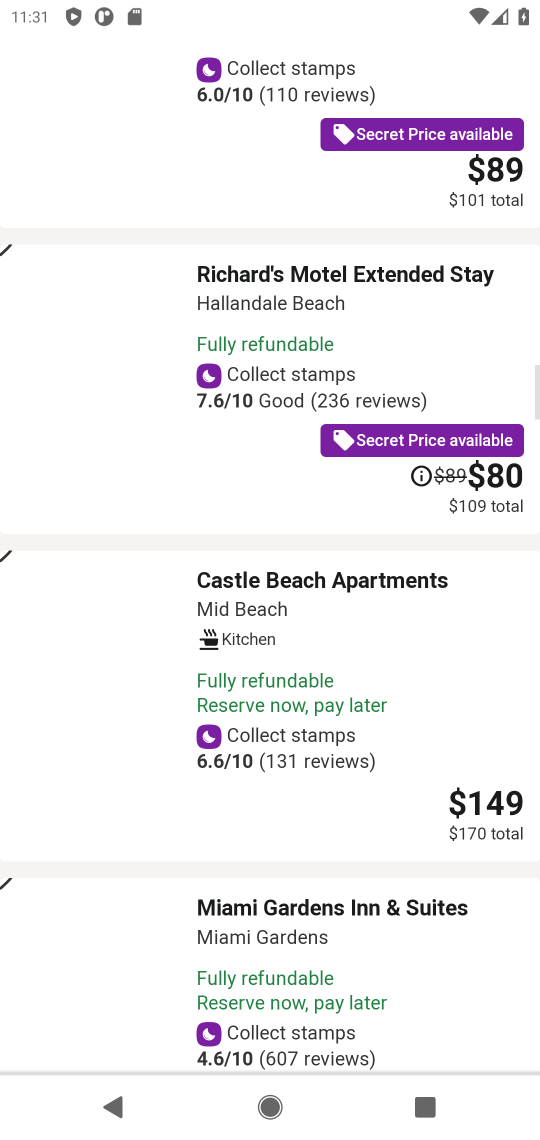
Step 47: drag from (407, 704) to (441, 161)
Your task to perform on an android device: Search for hotels in Miami Image 48: 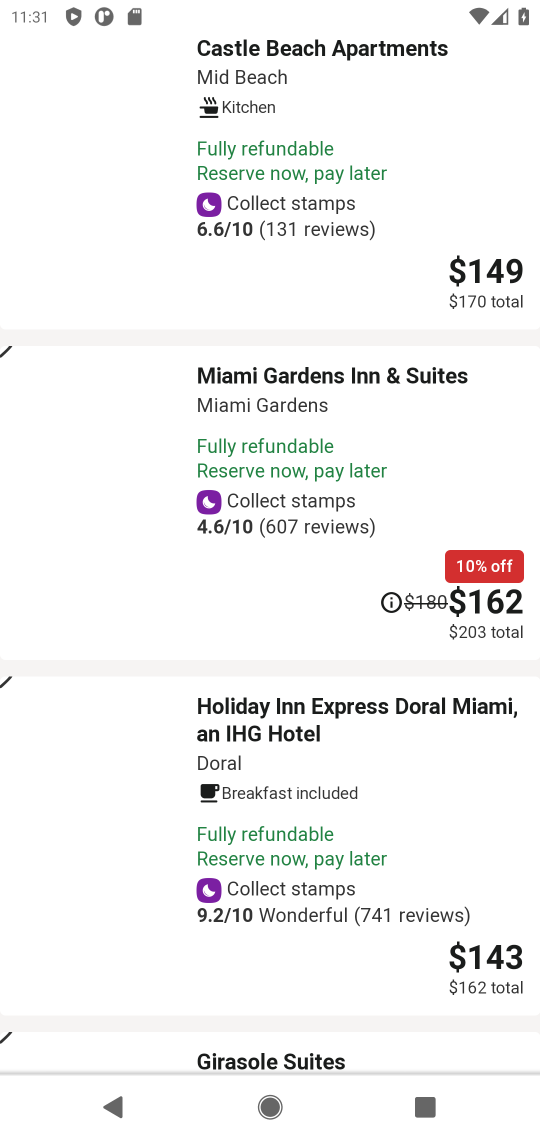
Step 48: drag from (405, 658) to (437, 110)
Your task to perform on an android device: Search for hotels in Miami Image 49: 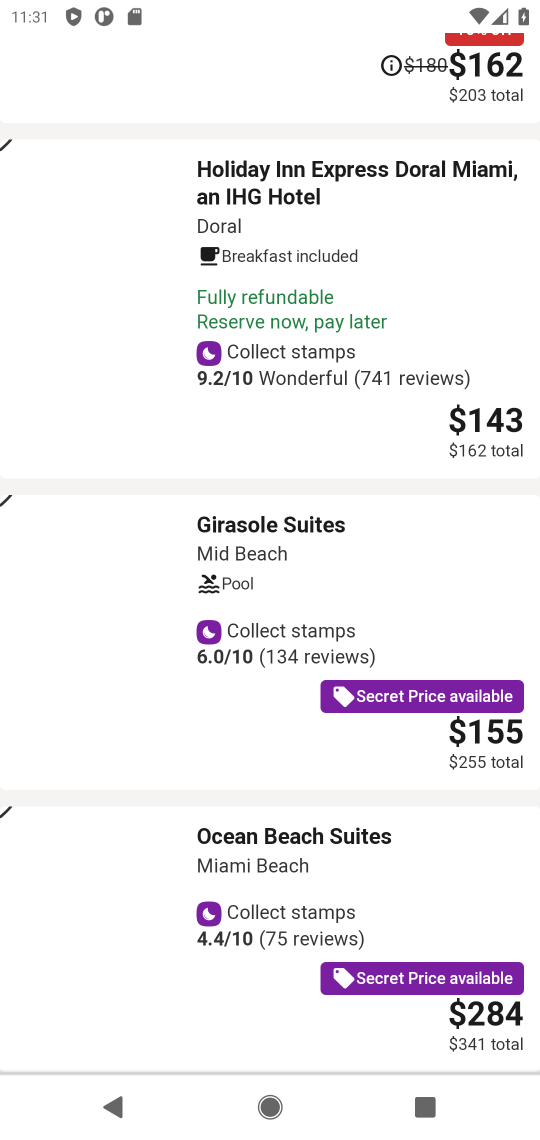
Step 49: drag from (384, 684) to (440, 207)
Your task to perform on an android device: Search for hotels in Miami Image 50: 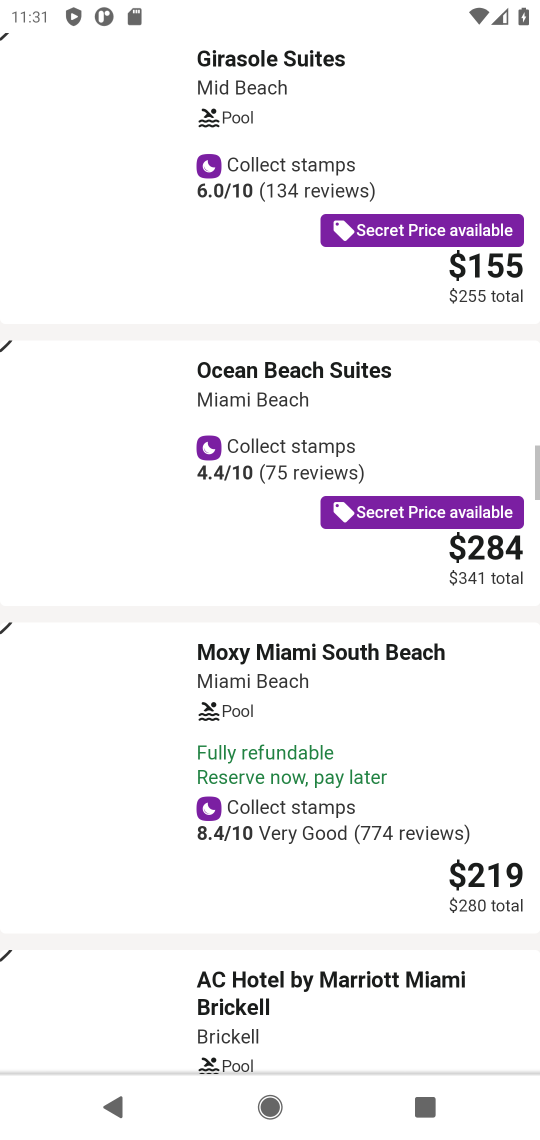
Step 50: drag from (439, 725) to (456, 170)
Your task to perform on an android device: Search for hotels in Miami Image 51: 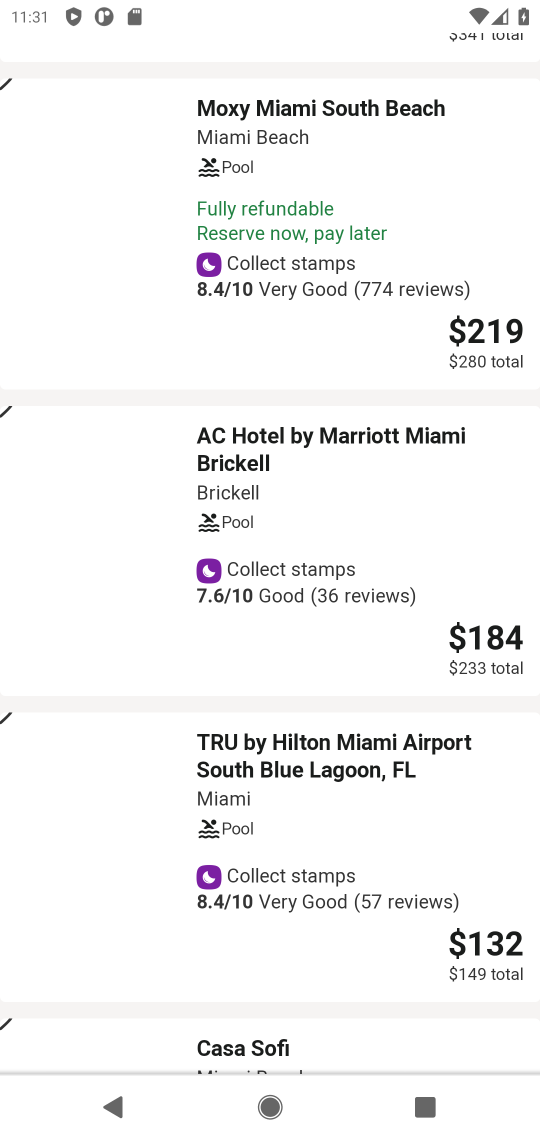
Step 51: click (393, 272)
Your task to perform on an android device: Search for hotels in Miami Image 52: 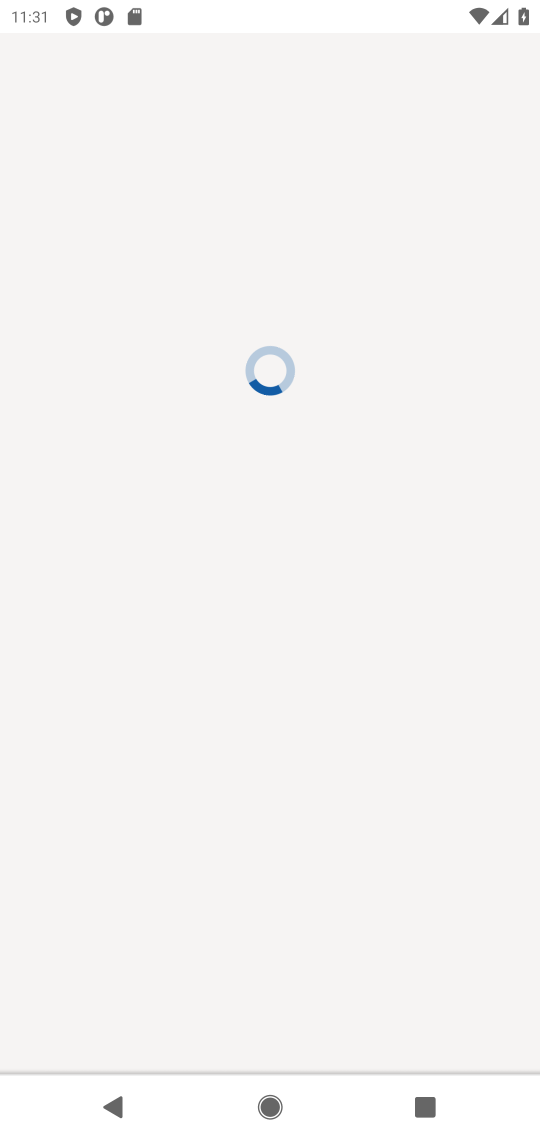
Step 52: drag from (457, 780) to (450, 167)
Your task to perform on an android device: Search for hotels in Miami Image 53: 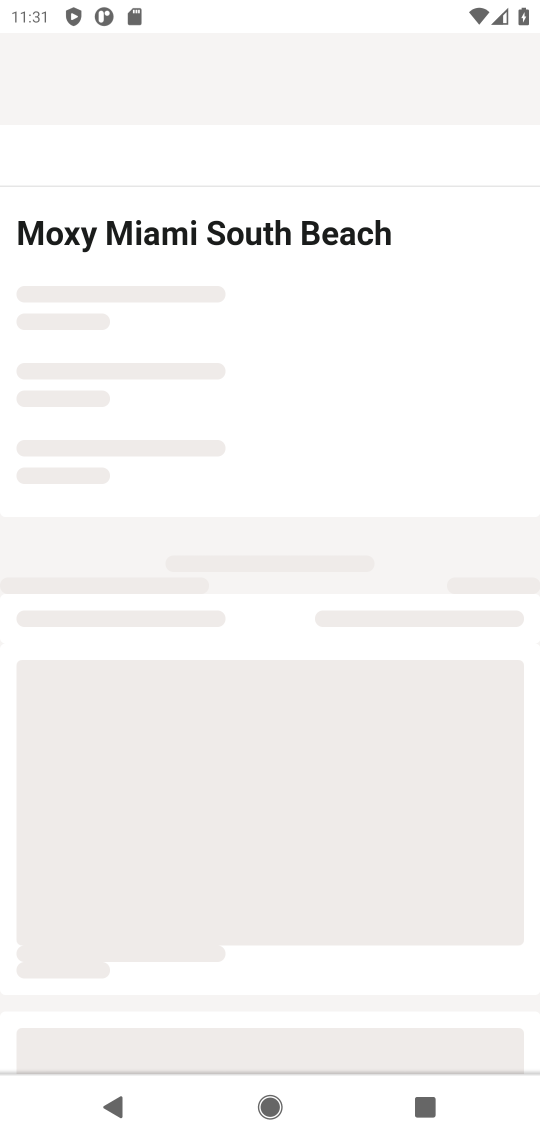
Step 53: press back button
Your task to perform on an android device: Search for hotels in Miami Image 54: 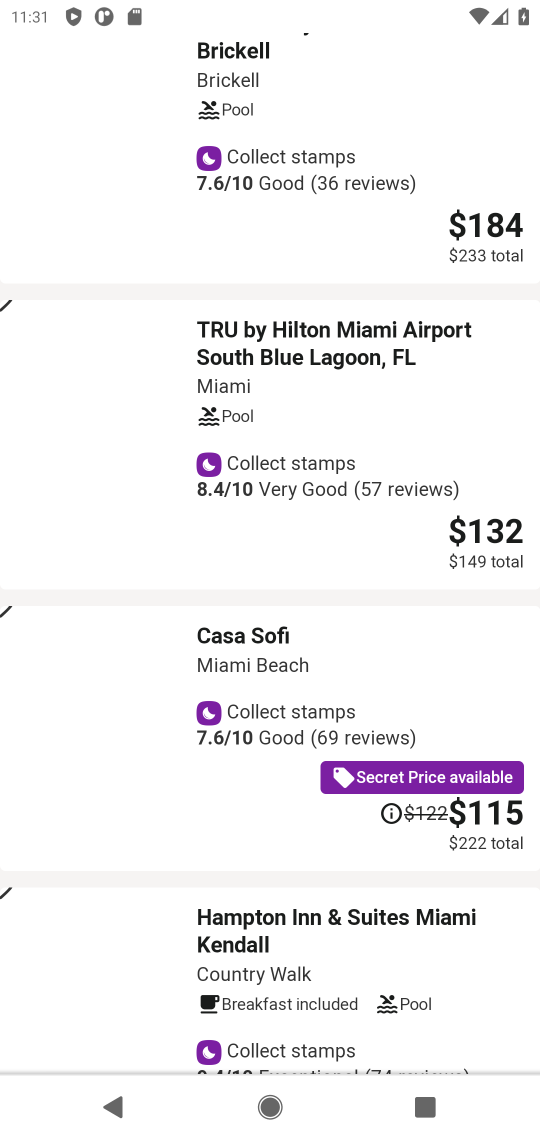
Step 54: drag from (405, 651) to (439, 190)
Your task to perform on an android device: Search for hotels in Miami Image 55: 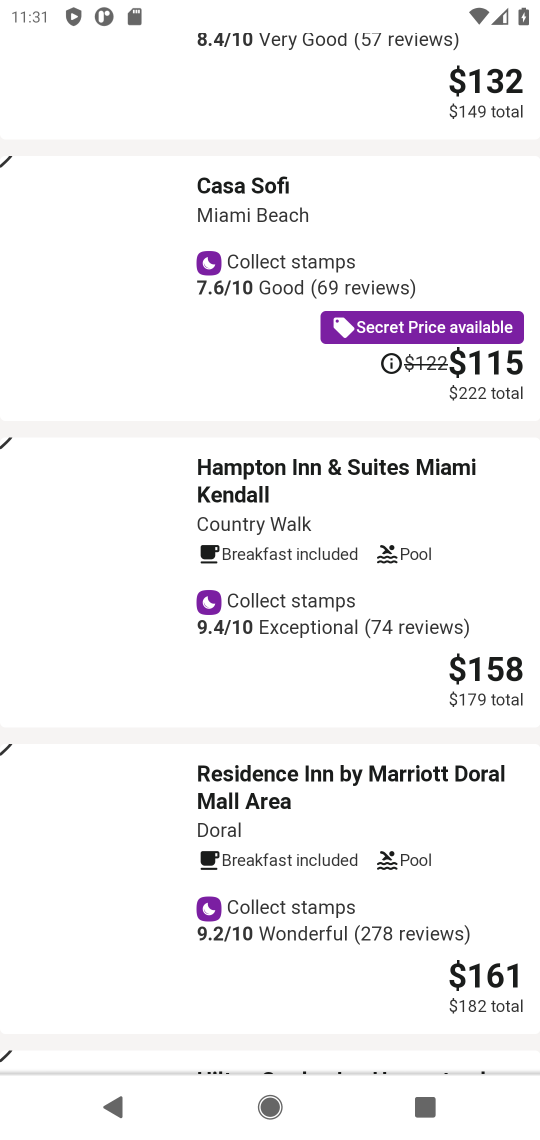
Step 55: drag from (447, 666) to (431, 164)
Your task to perform on an android device: Search for hotels in Miami Image 56: 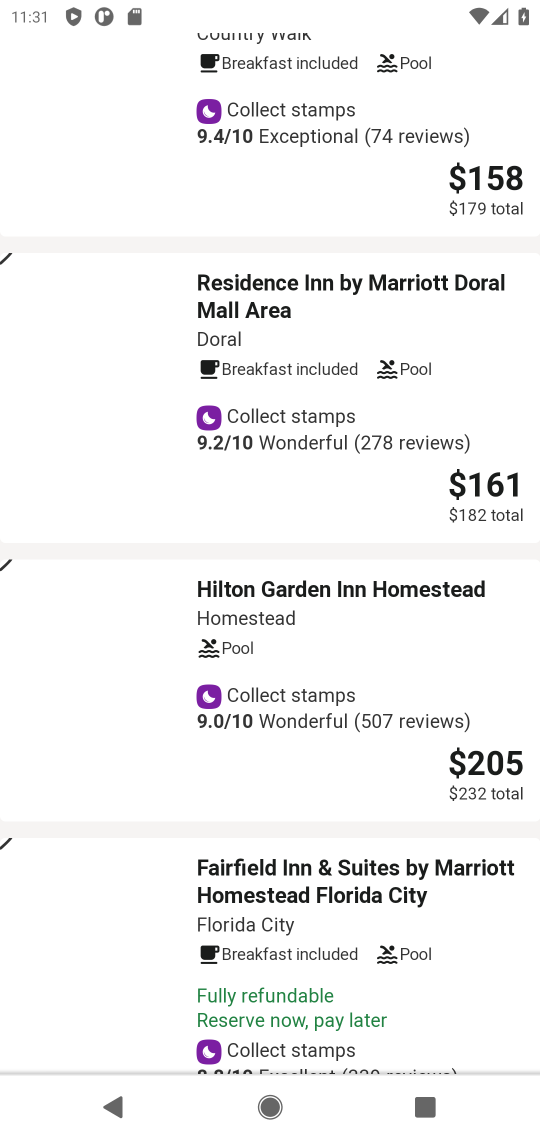
Step 56: drag from (400, 699) to (419, 160)
Your task to perform on an android device: Search for hotels in Miami Image 57: 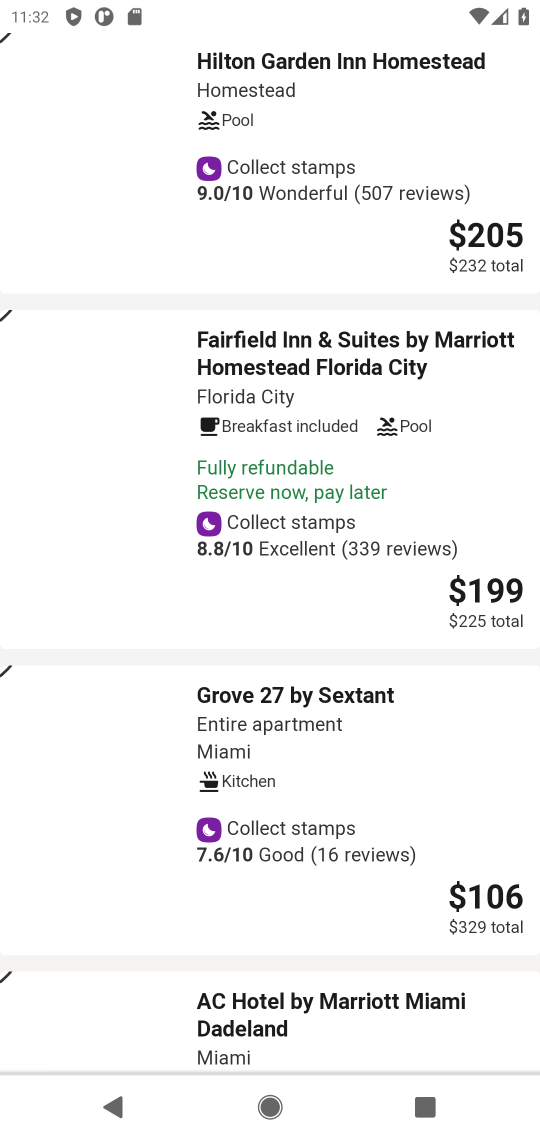
Step 57: drag from (440, 749) to (438, 155)
Your task to perform on an android device: Search for hotels in Miami Image 58: 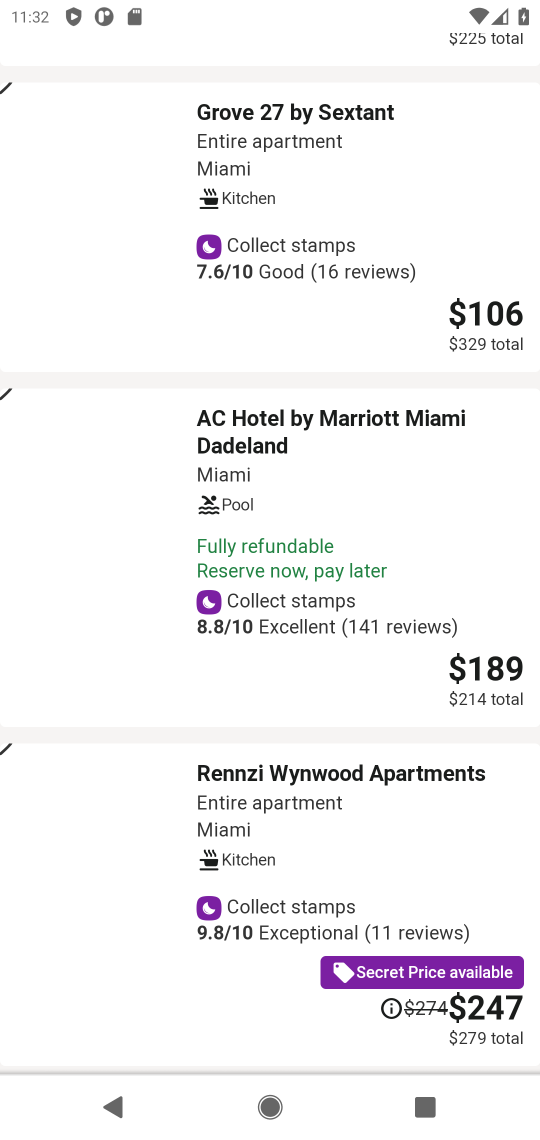
Step 58: drag from (424, 763) to (431, 193)
Your task to perform on an android device: Search for hotels in Miami Image 59: 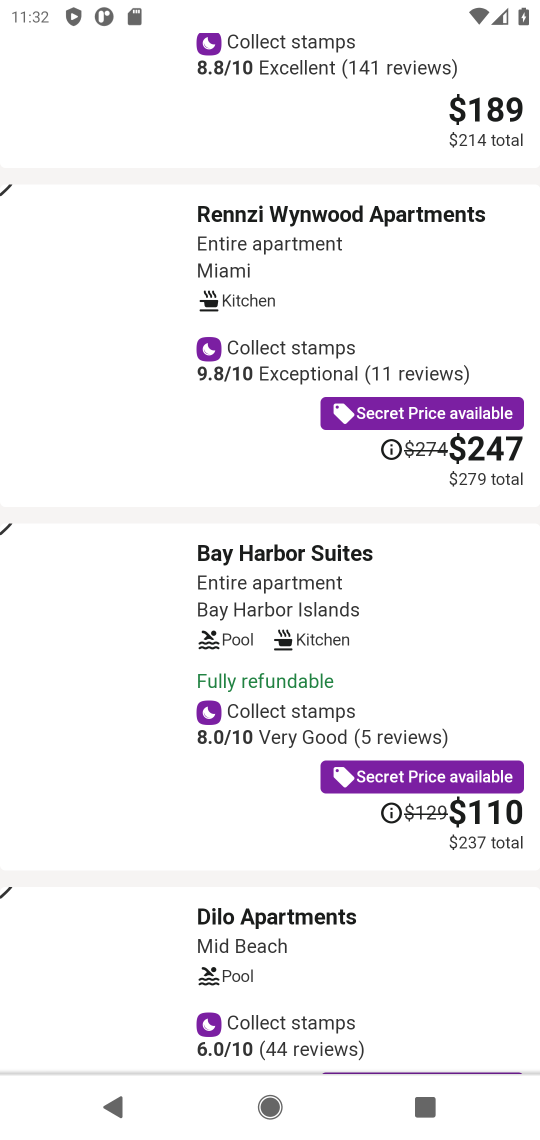
Step 59: drag from (394, 861) to (413, 237)
Your task to perform on an android device: Search for hotels in Miami Image 60: 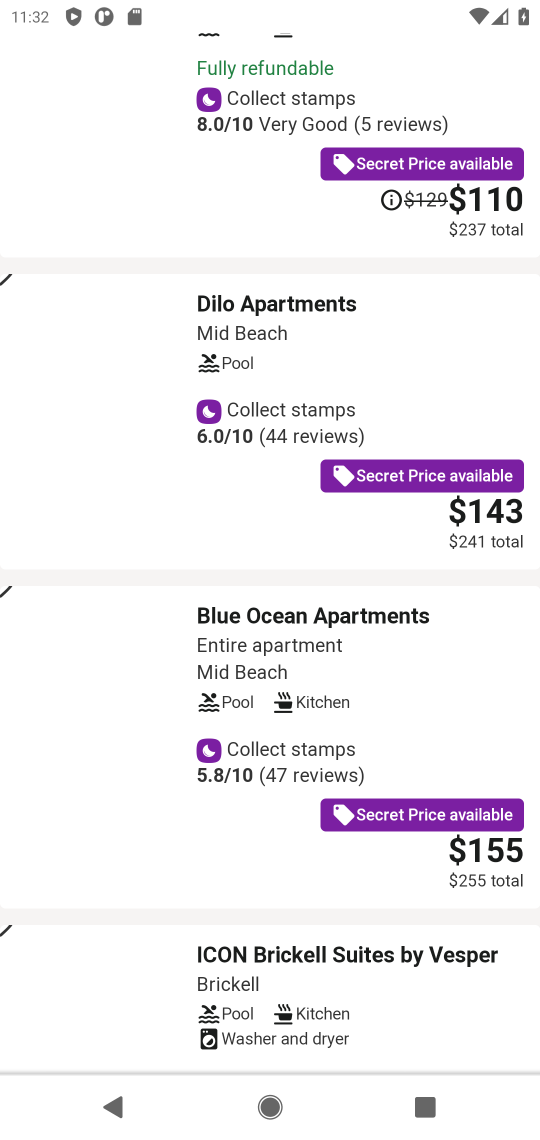
Step 60: drag from (433, 742) to (442, 246)
Your task to perform on an android device: Search for hotels in Miami Image 61: 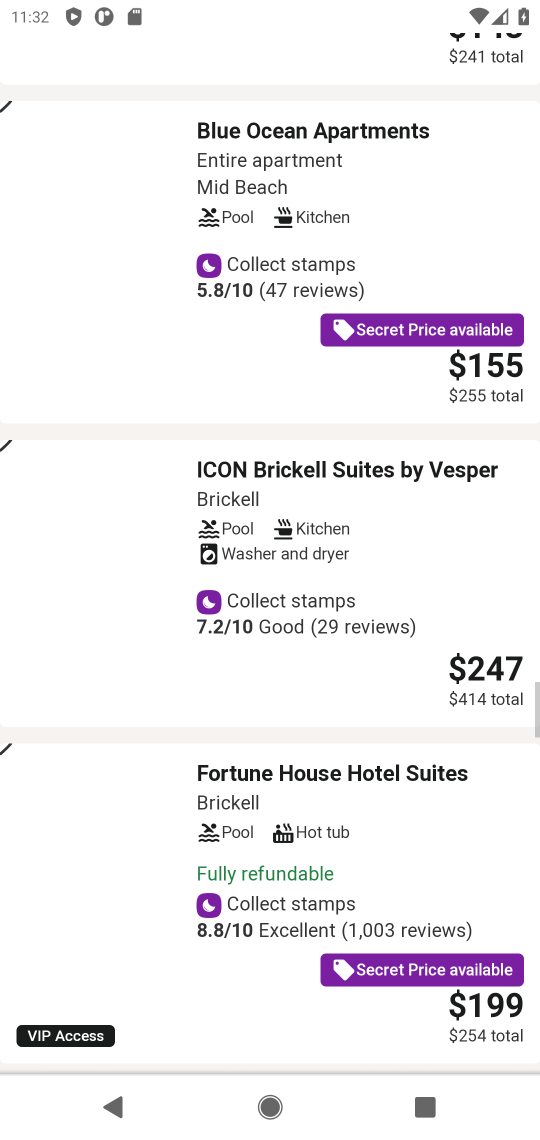
Step 61: press back button
Your task to perform on an android device: Search for hotels in Miami Image 62: 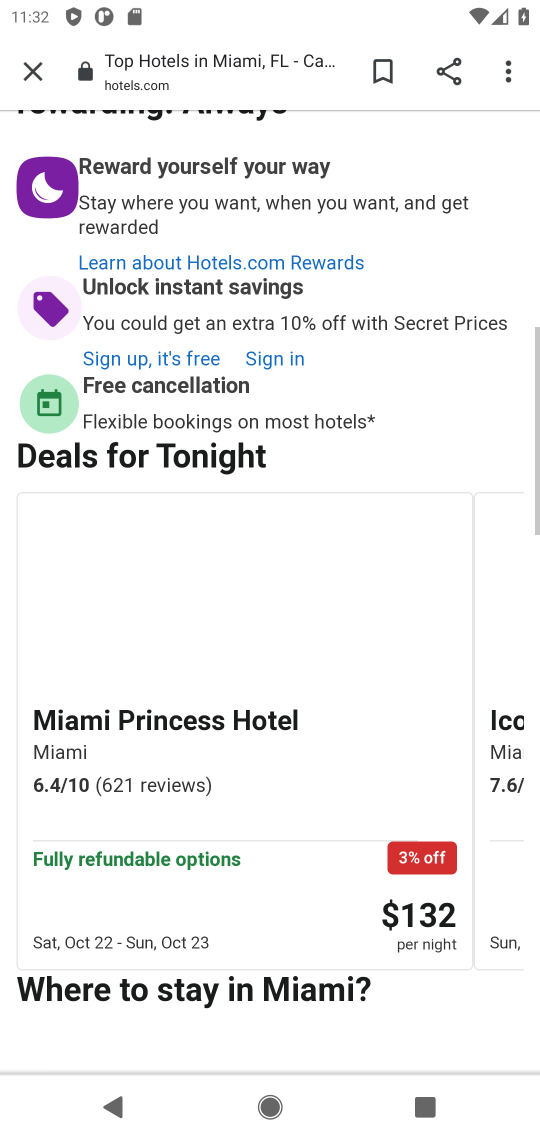
Step 62: press back button
Your task to perform on an android device: Search for hotels in Miami Image 63: 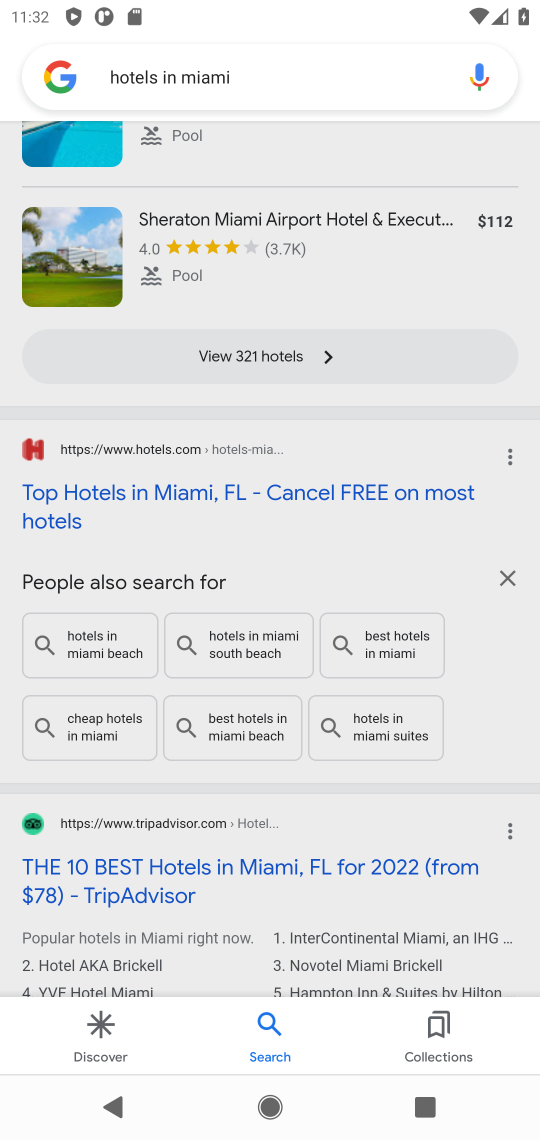
Step 63: click (220, 850)
Your task to perform on an android device: Search for hotels in Miami Image 64: 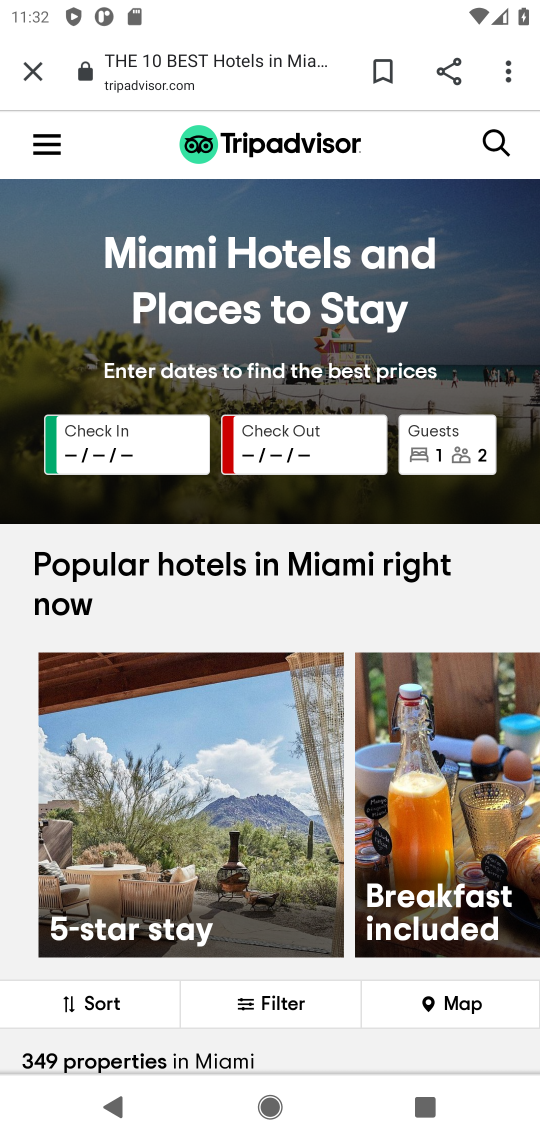
Step 64: drag from (295, 723) to (409, 212)
Your task to perform on an android device: Search for hotels in Miami Image 65: 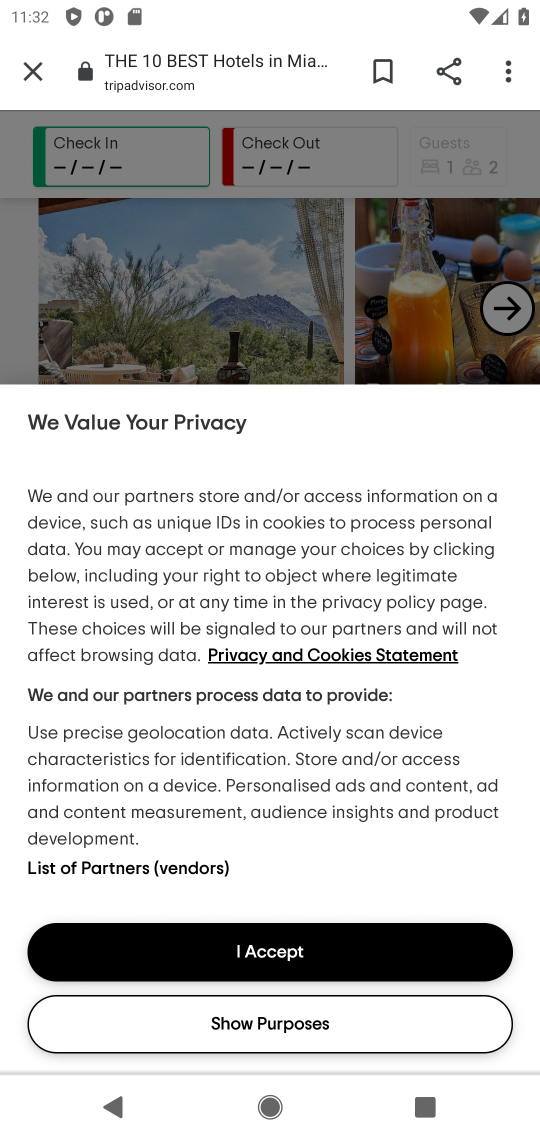
Step 65: click (275, 959)
Your task to perform on an android device: Search for hotels in Miami Image 66: 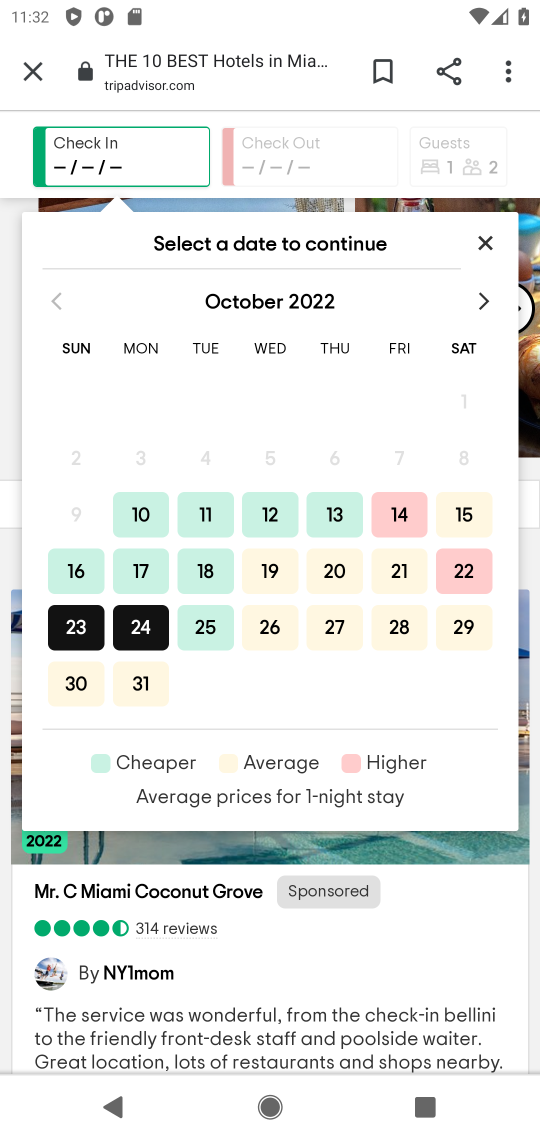
Step 66: drag from (302, 857) to (336, 243)
Your task to perform on an android device: Search for hotels in Miami Image 67: 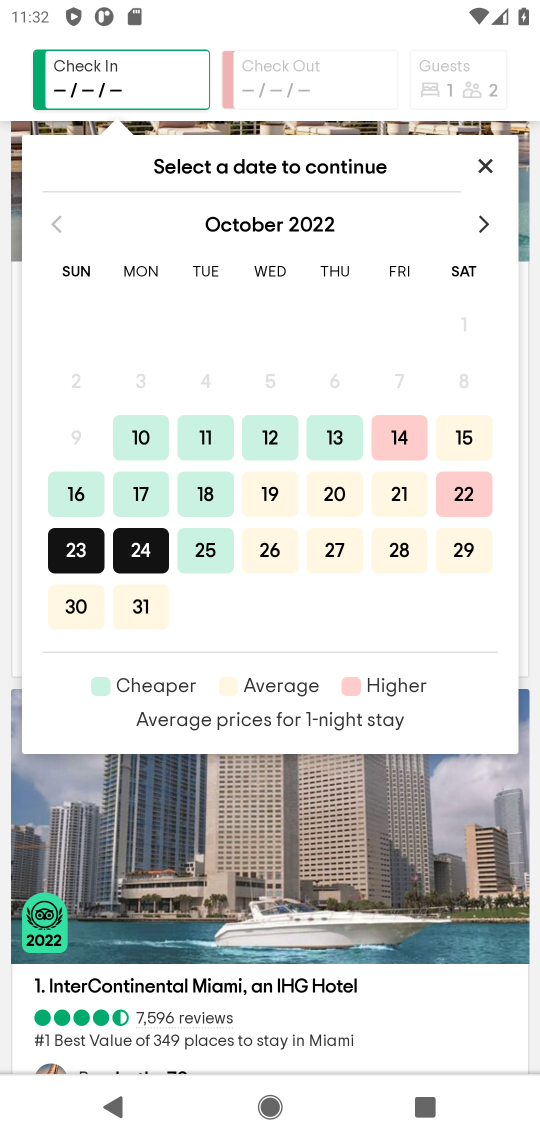
Step 67: click (493, 165)
Your task to perform on an android device: Search for hotels in Miami Image 68: 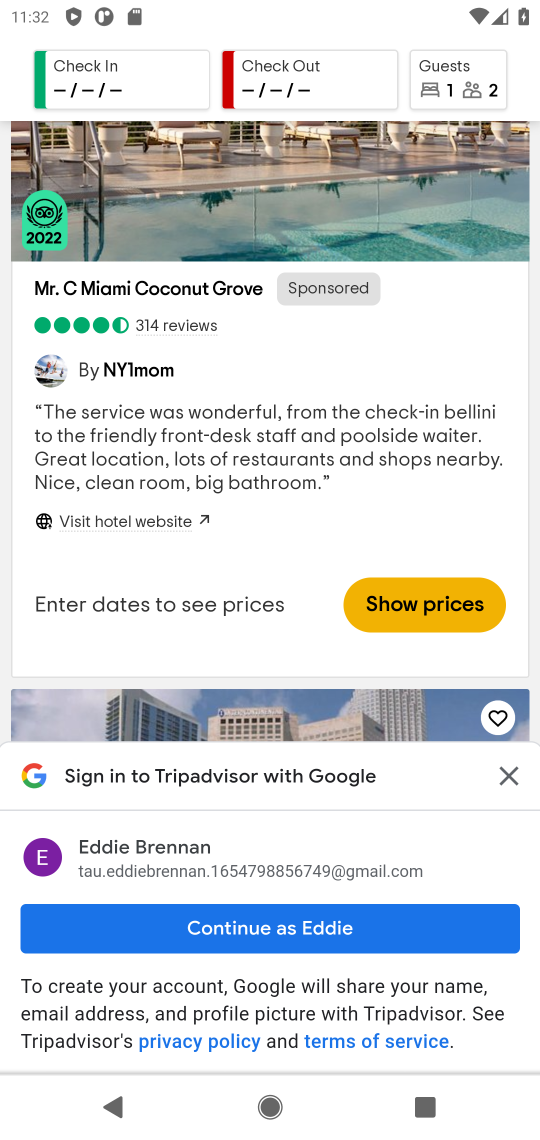
Step 68: drag from (377, 828) to (369, 210)
Your task to perform on an android device: Search for hotels in Miami Image 69: 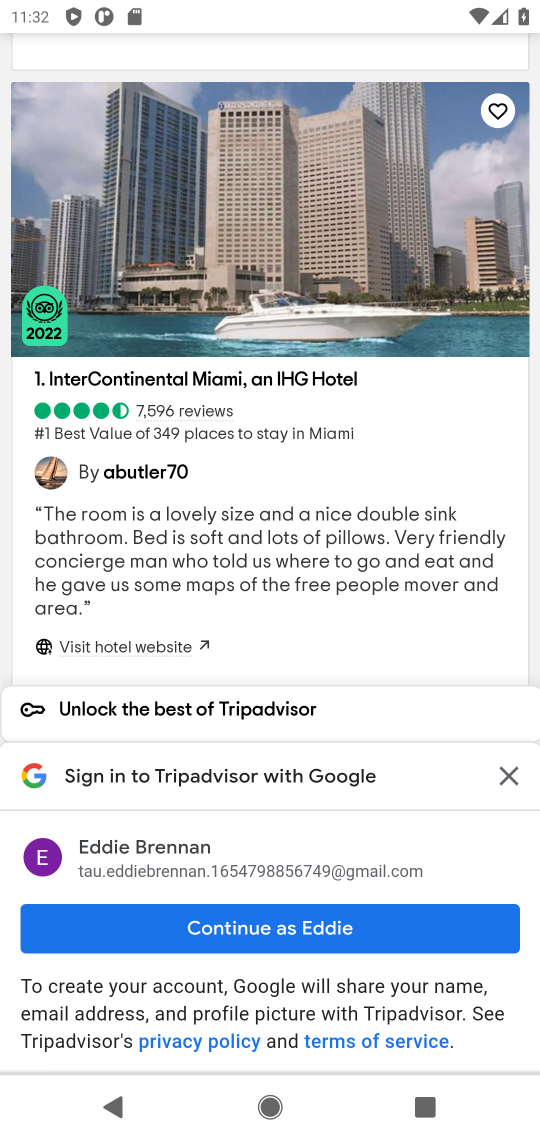
Step 69: click (503, 780)
Your task to perform on an android device: Search for hotels in Miami Image 70: 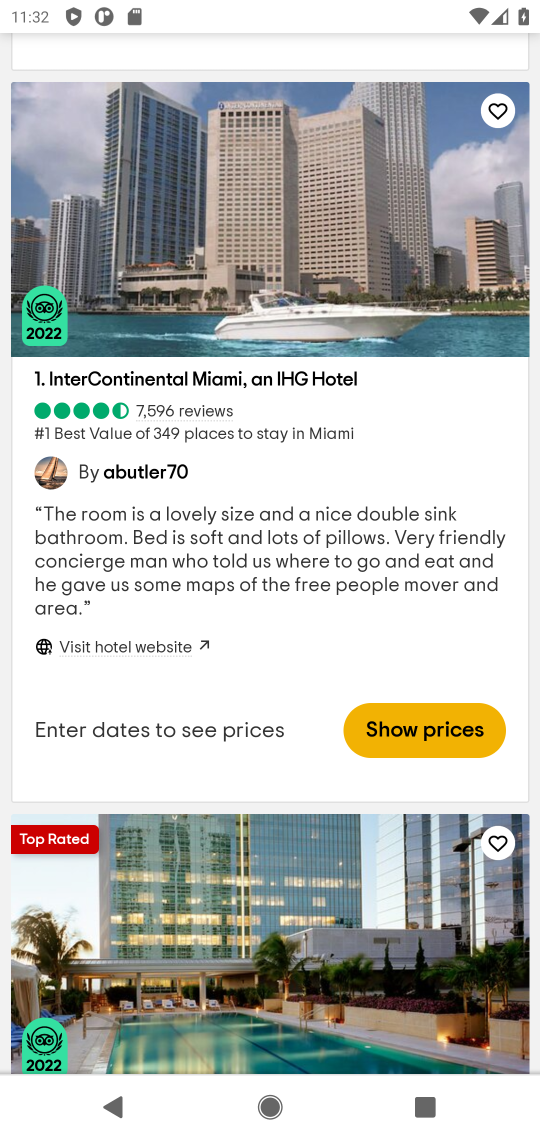
Step 70: task complete